Your task to perform on an android device: install app "Google Maps" Image 0: 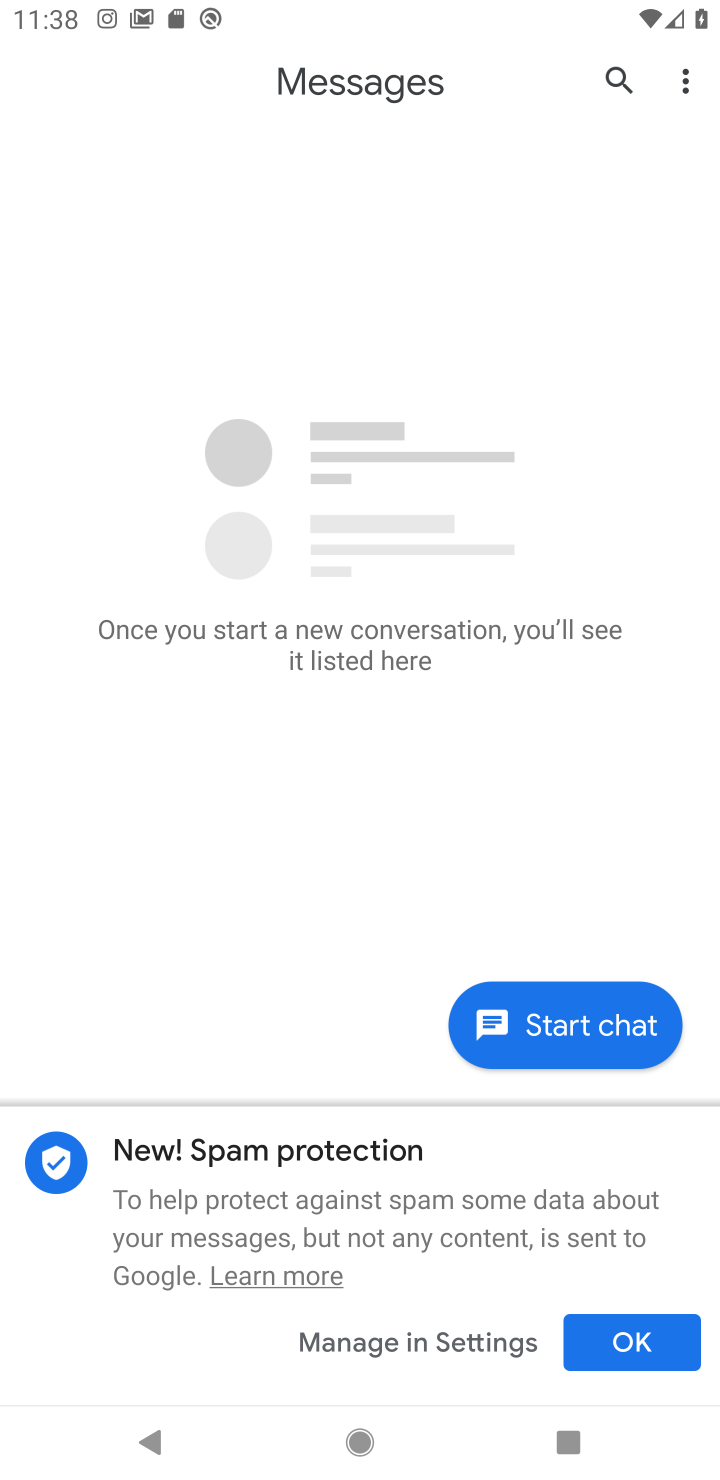
Step 0: press back button
Your task to perform on an android device: install app "Google Maps" Image 1: 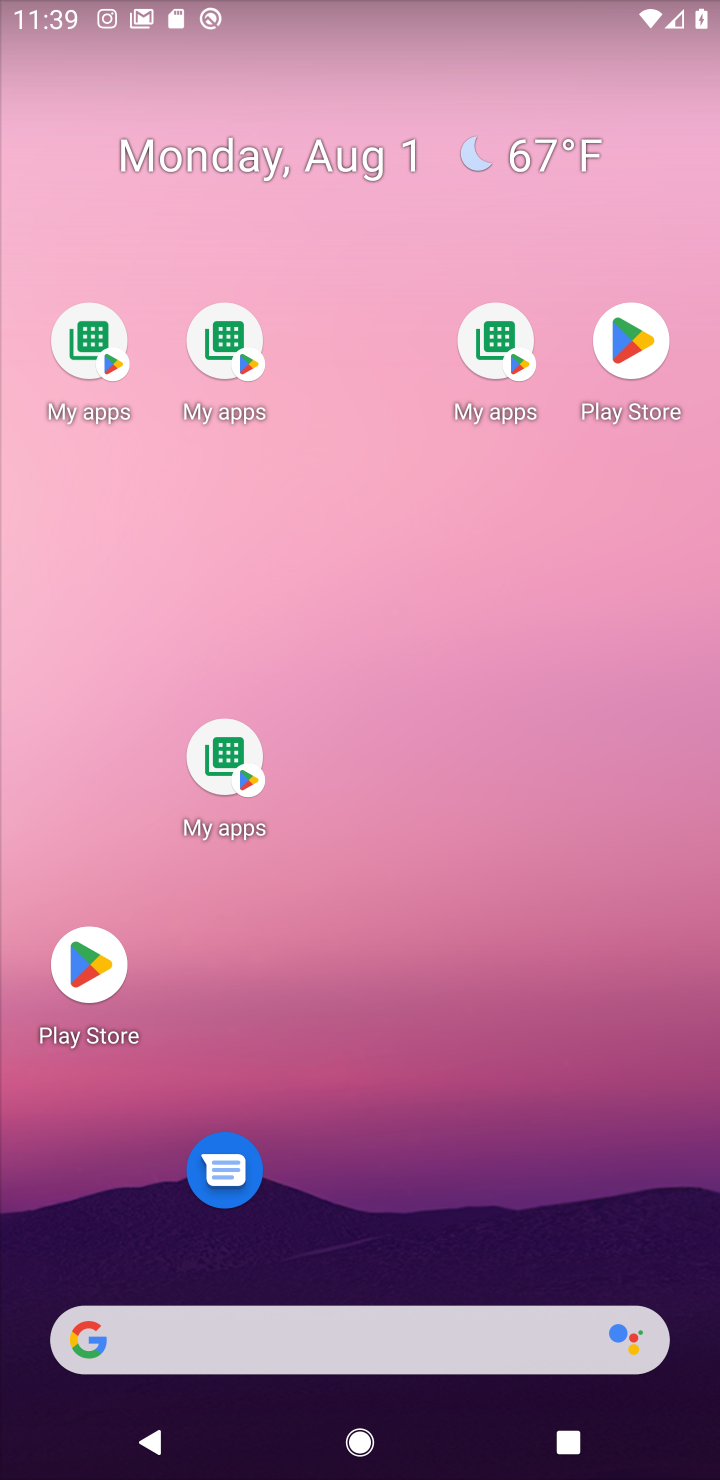
Step 1: drag from (470, 1225) to (406, 0)
Your task to perform on an android device: install app "Google Maps" Image 2: 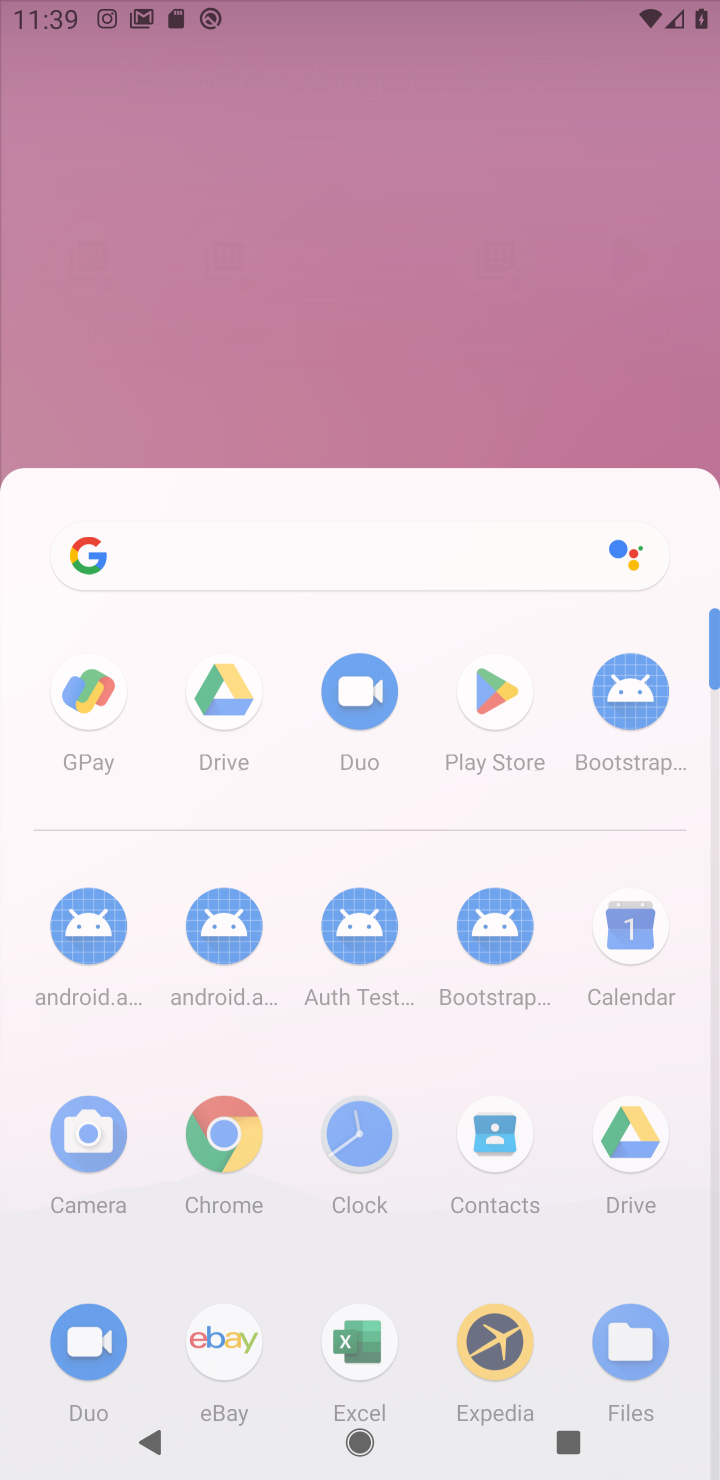
Step 2: drag from (569, 925) to (542, 205)
Your task to perform on an android device: install app "Google Maps" Image 3: 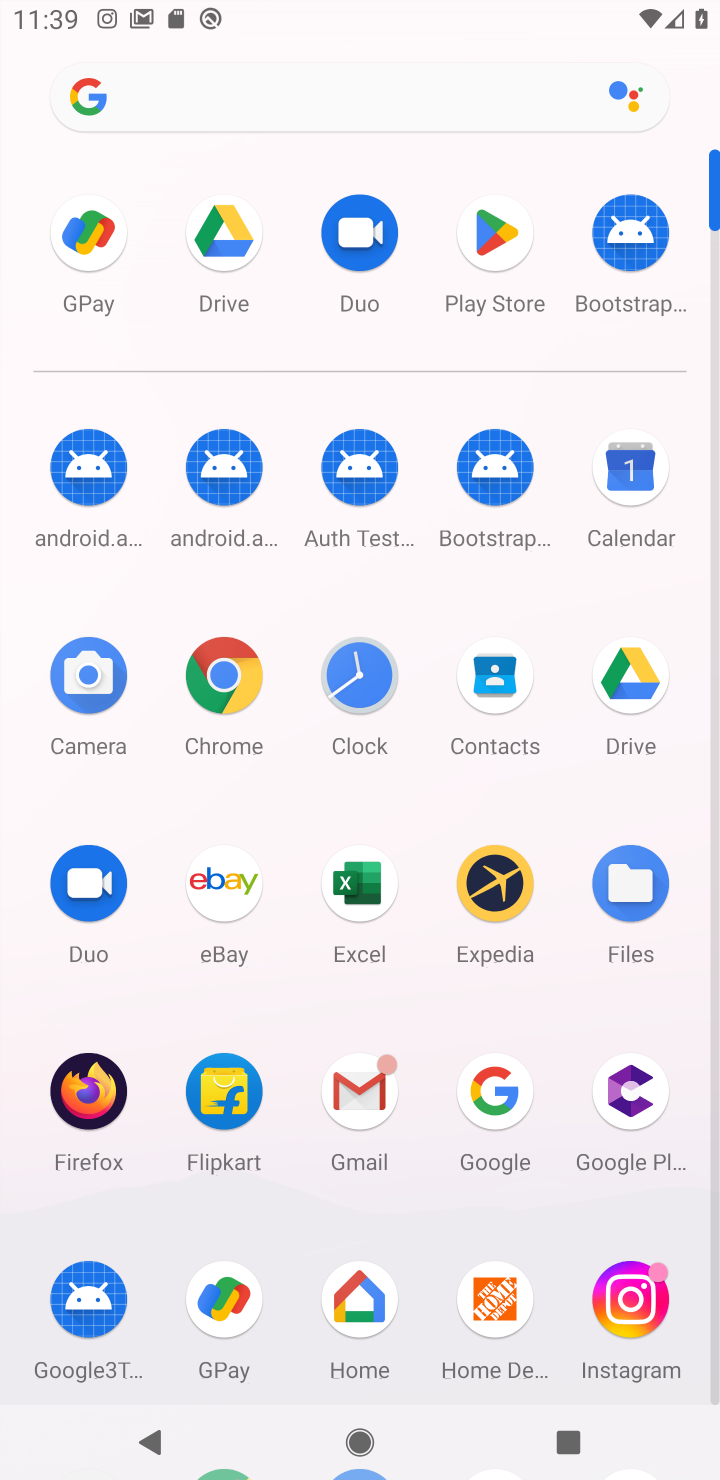
Step 3: drag from (362, 661) to (400, 403)
Your task to perform on an android device: install app "Google Maps" Image 4: 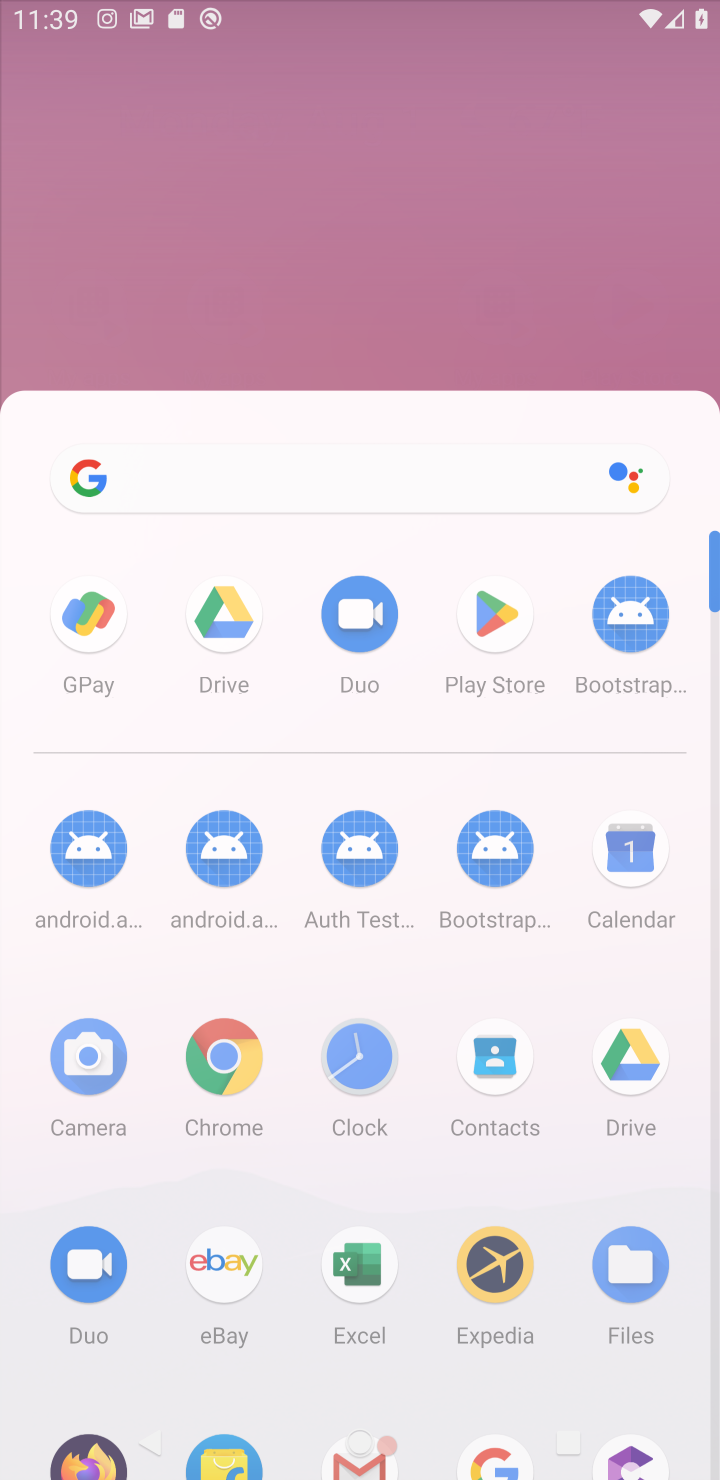
Step 4: drag from (580, 573) to (564, 353)
Your task to perform on an android device: install app "Google Maps" Image 5: 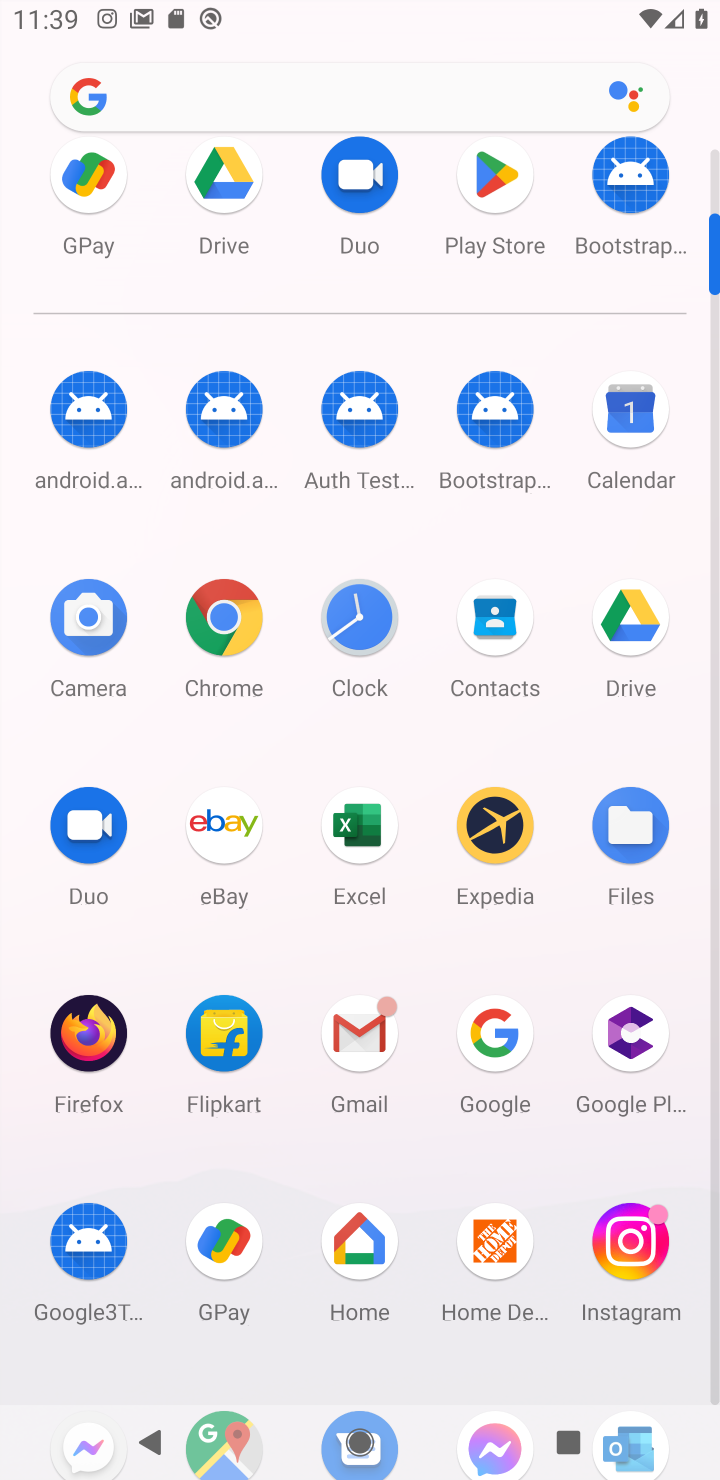
Step 5: click (256, 410)
Your task to perform on an android device: install app "Google Maps" Image 6: 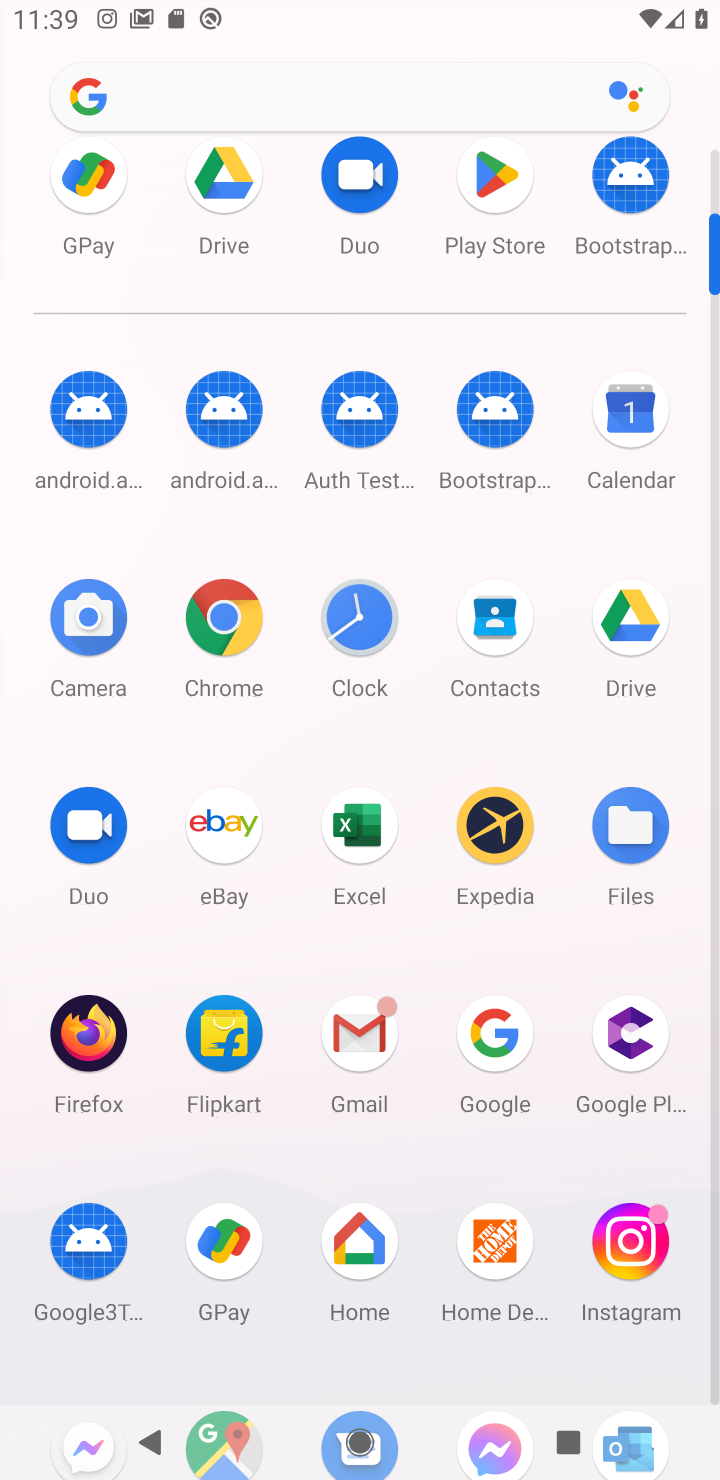
Step 6: drag from (449, 606) to (408, 358)
Your task to perform on an android device: install app "Google Maps" Image 7: 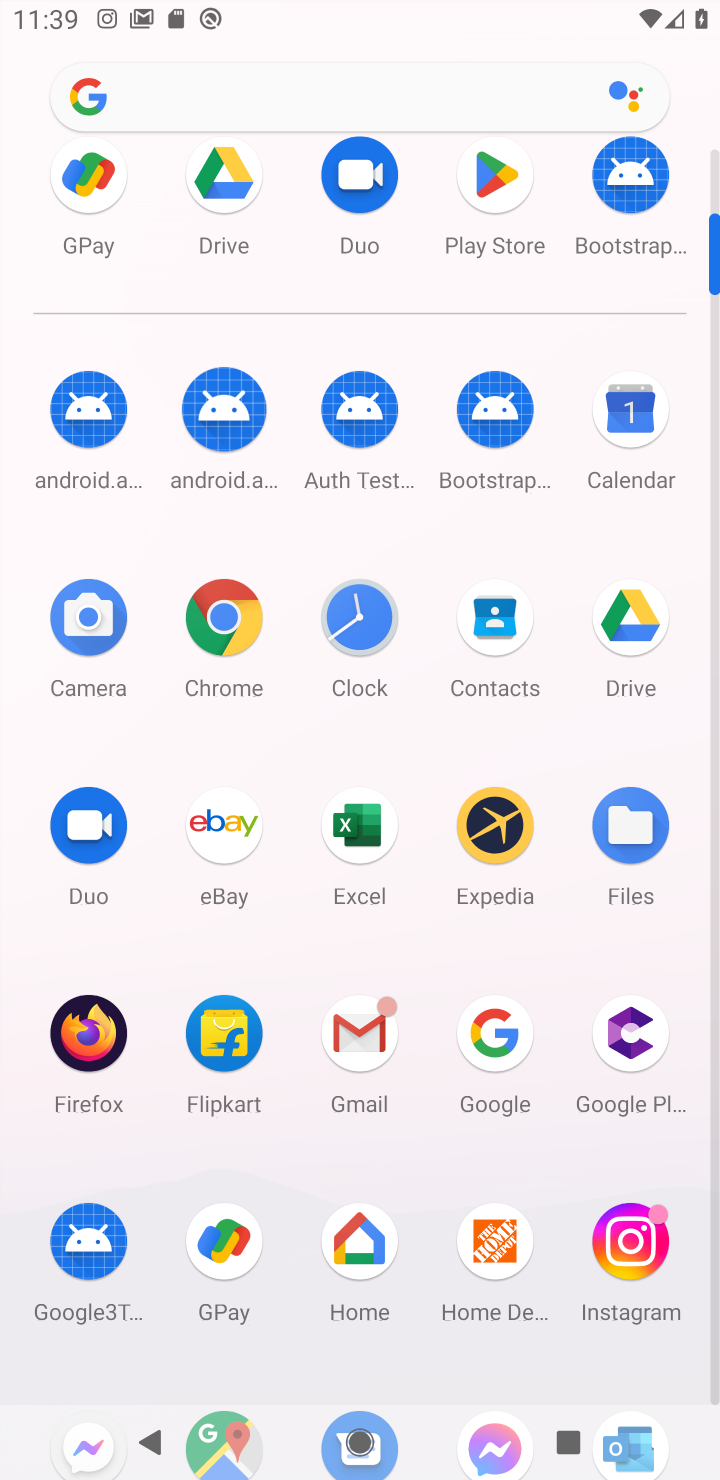
Step 7: drag from (356, 505) to (265, 107)
Your task to perform on an android device: install app "Google Maps" Image 8: 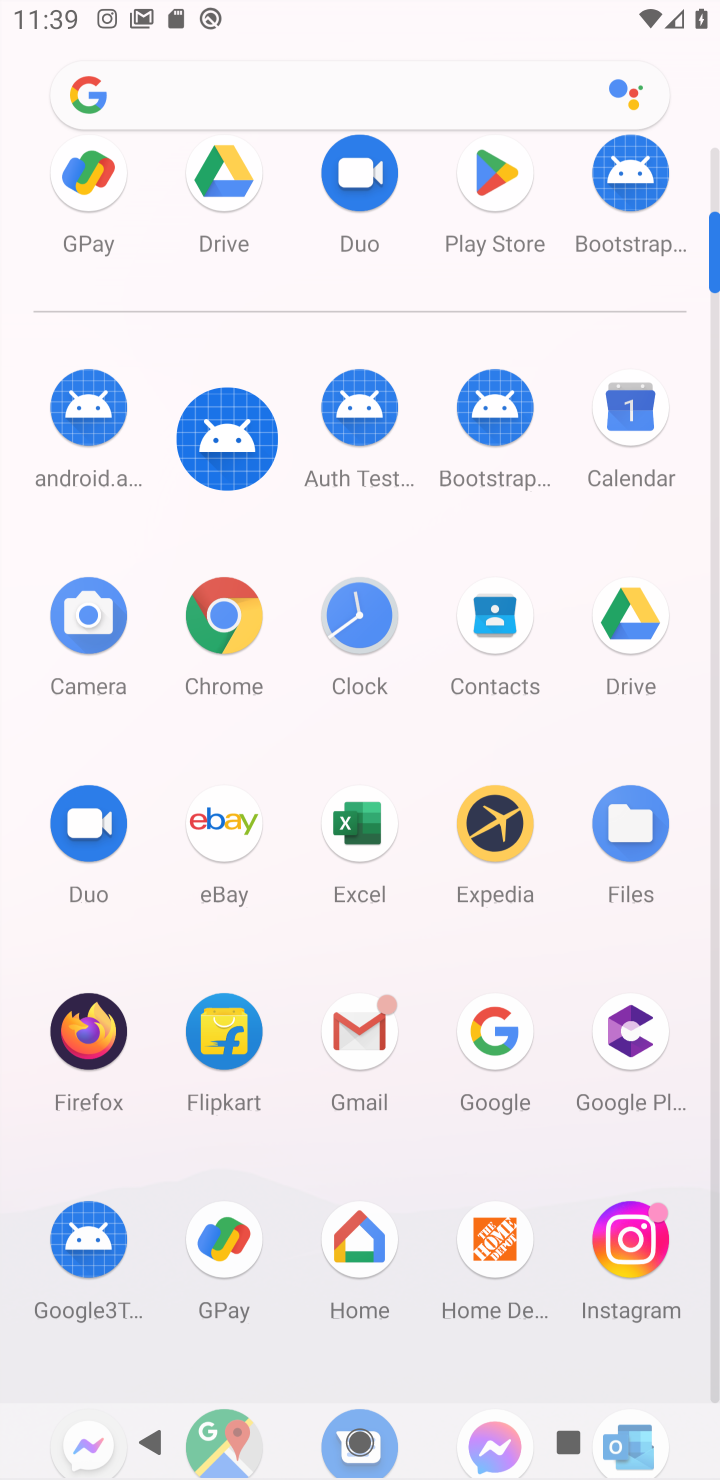
Step 8: drag from (387, 1122) to (520, 224)
Your task to perform on an android device: install app "Google Maps" Image 9: 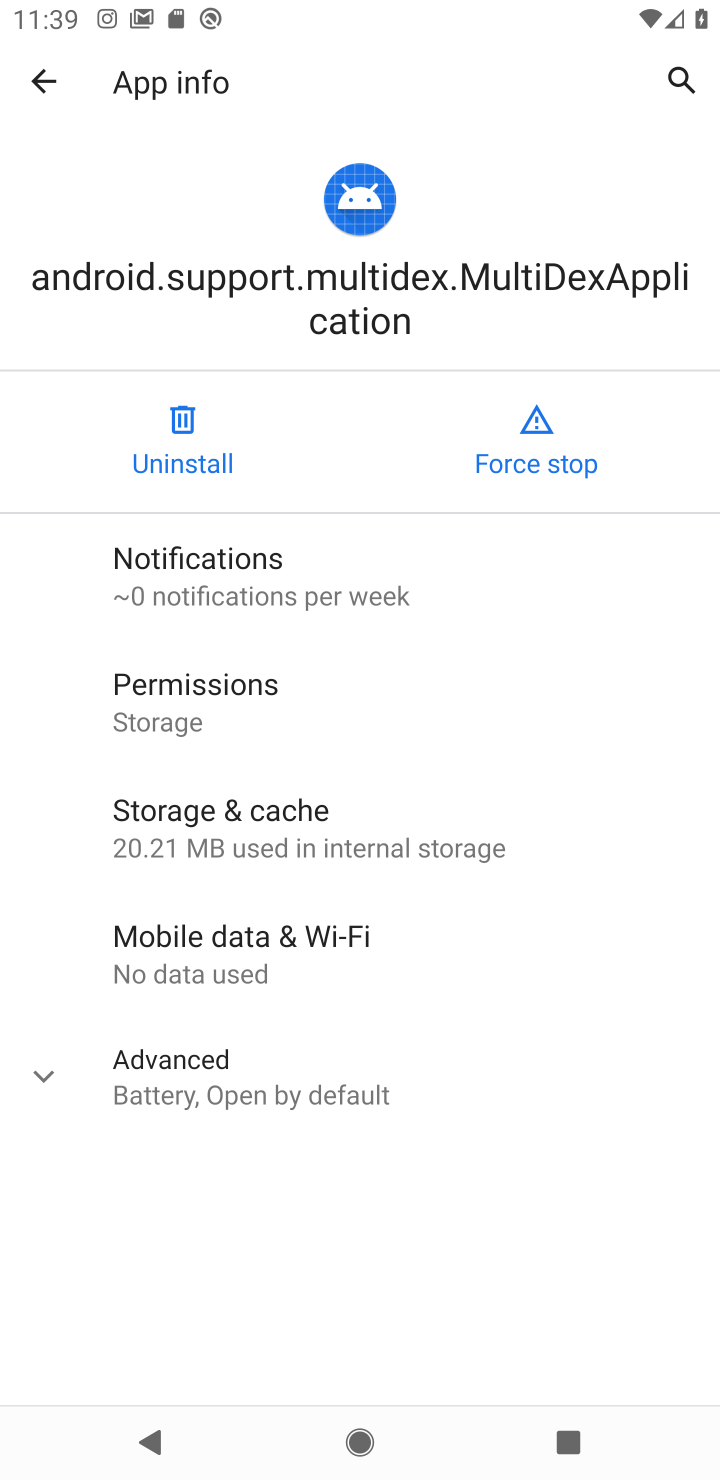
Step 9: drag from (521, 1156) to (398, 230)
Your task to perform on an android device: install app "Google Maps" Image 10: 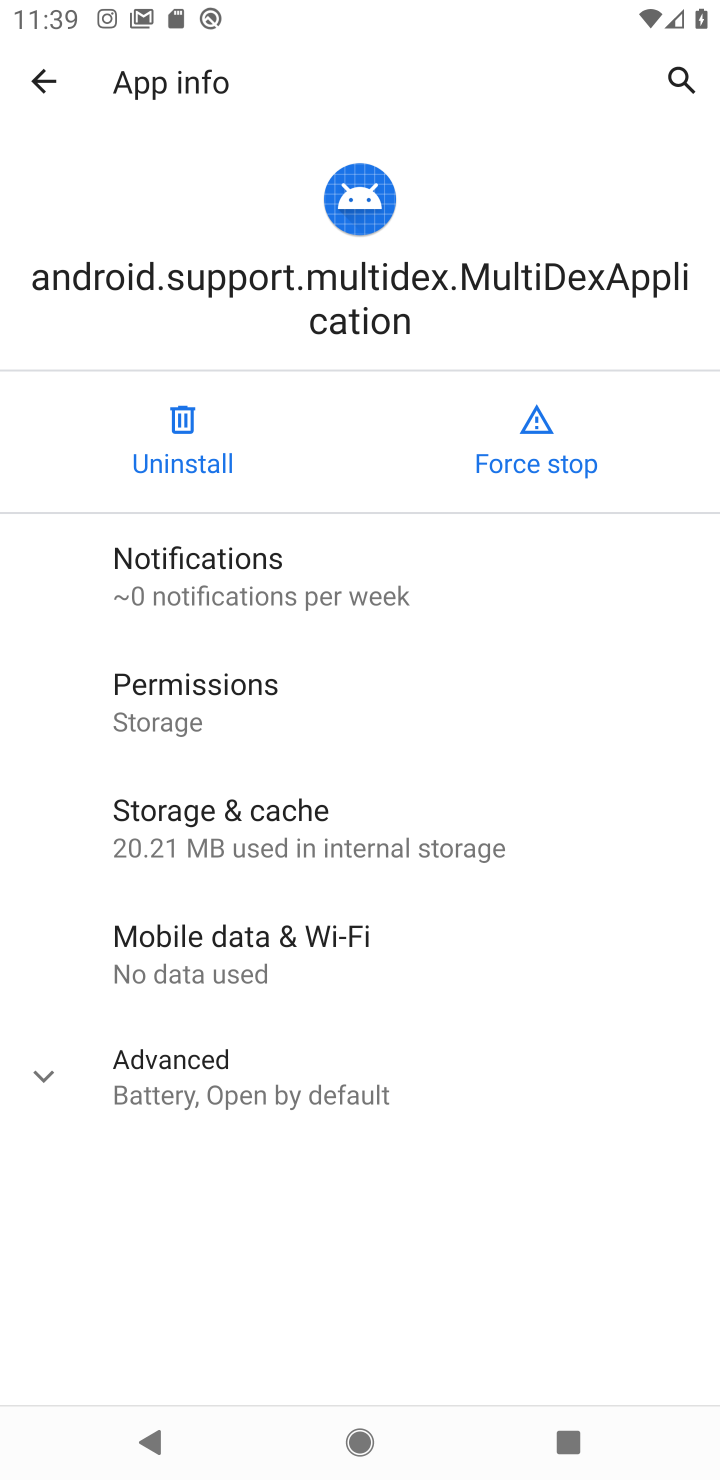
Step 10: click (273, 457)
Your task to perform on an android device: install app "Google Maps" Image 11: 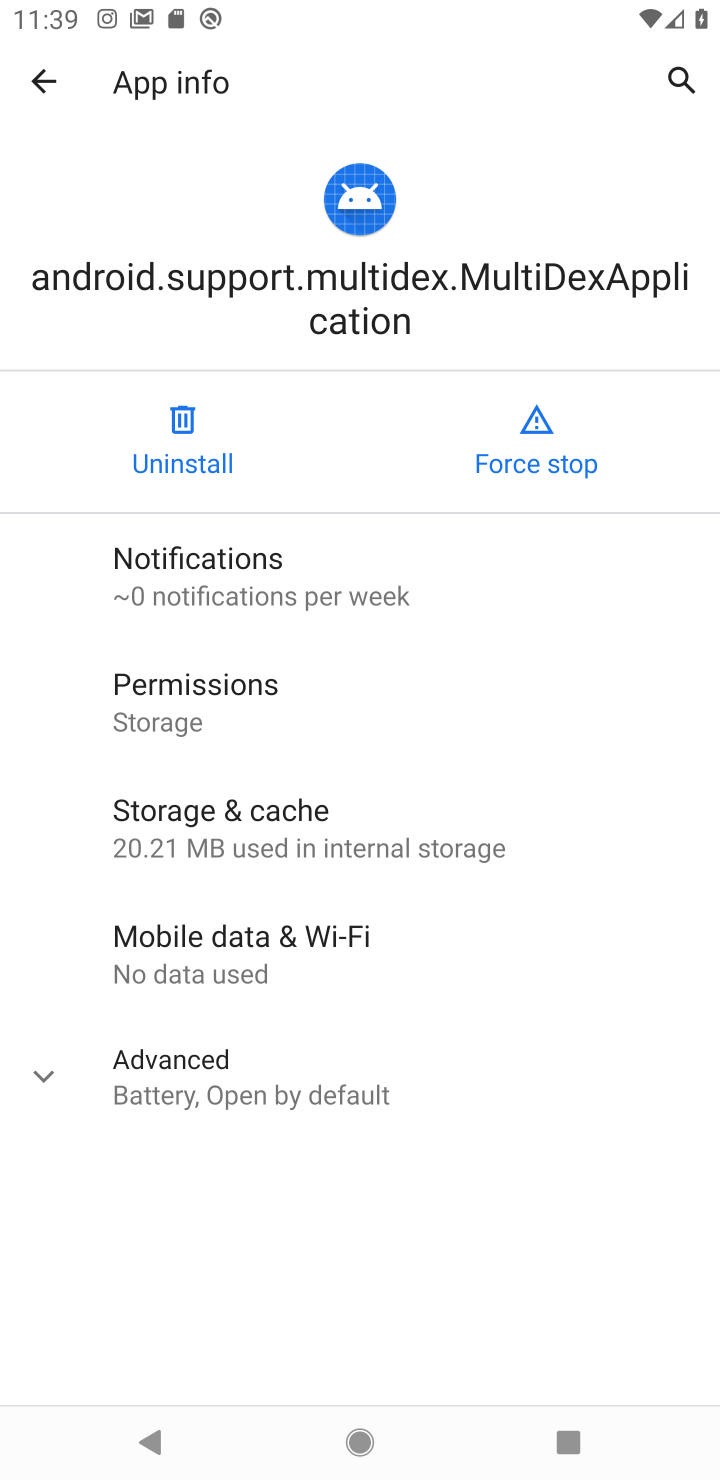
Step 11: click (44, 69)
Your task to perform on an android device: install app "Google Maps" Image 12: 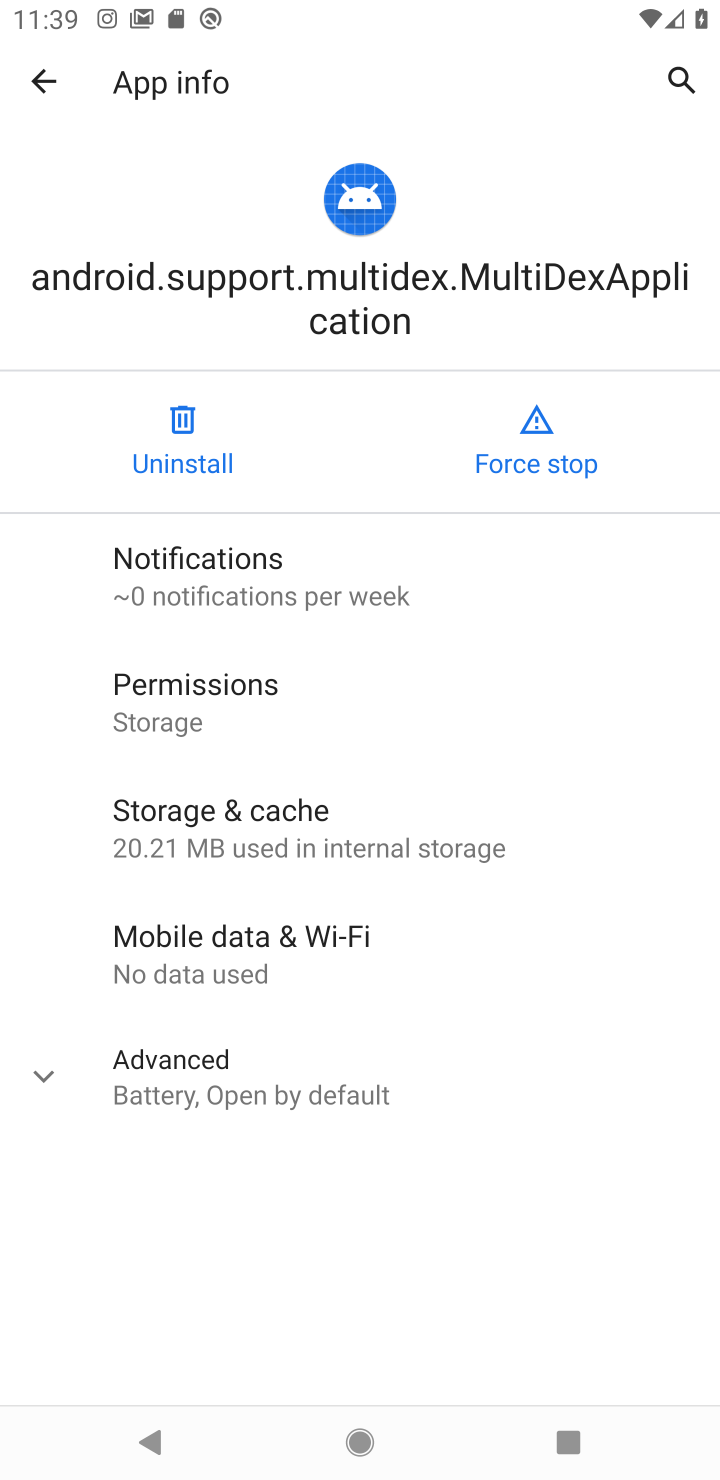
Step 12: click (42, 68)
Your task to perform on an android device: install app "Google Maps" Image 13: 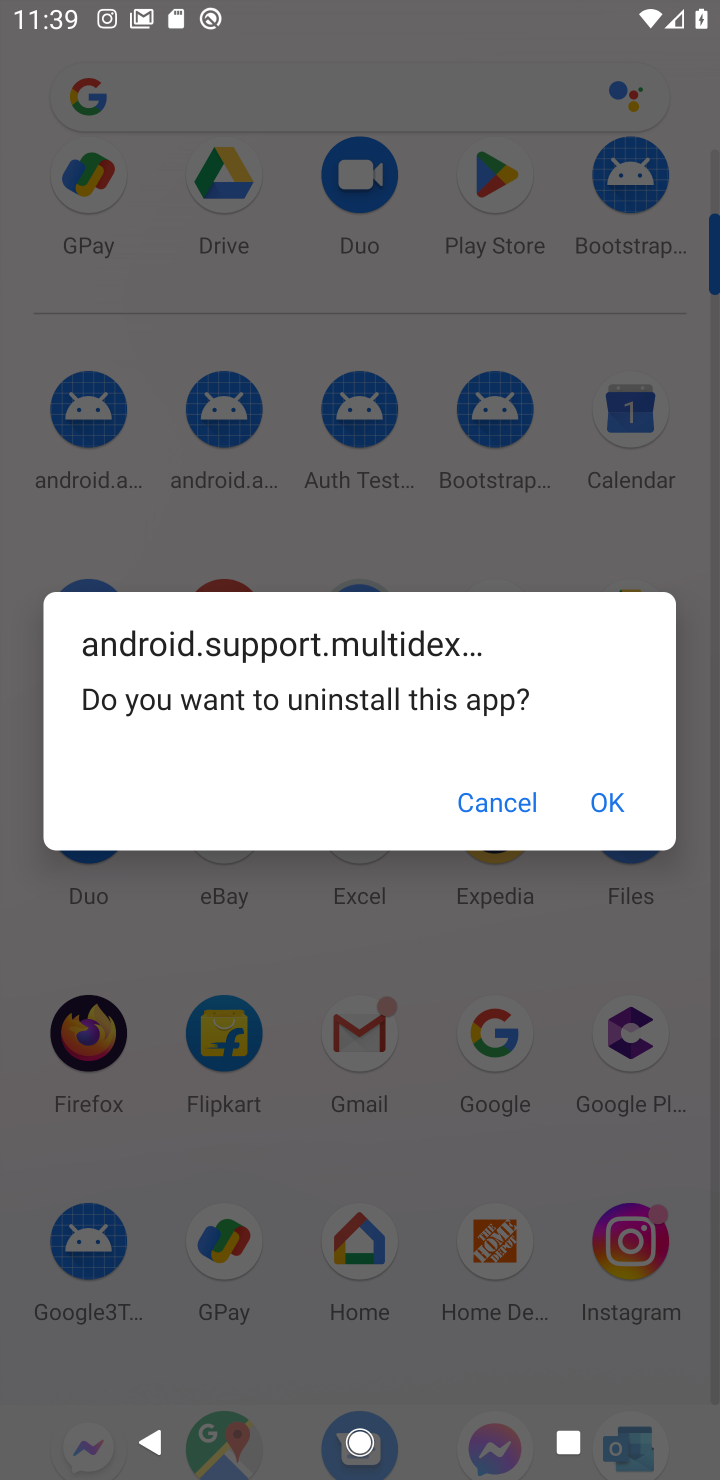
Step 13: click (498, 819)
Your task to perform on an android device: install app "Google Maps" Image 14: 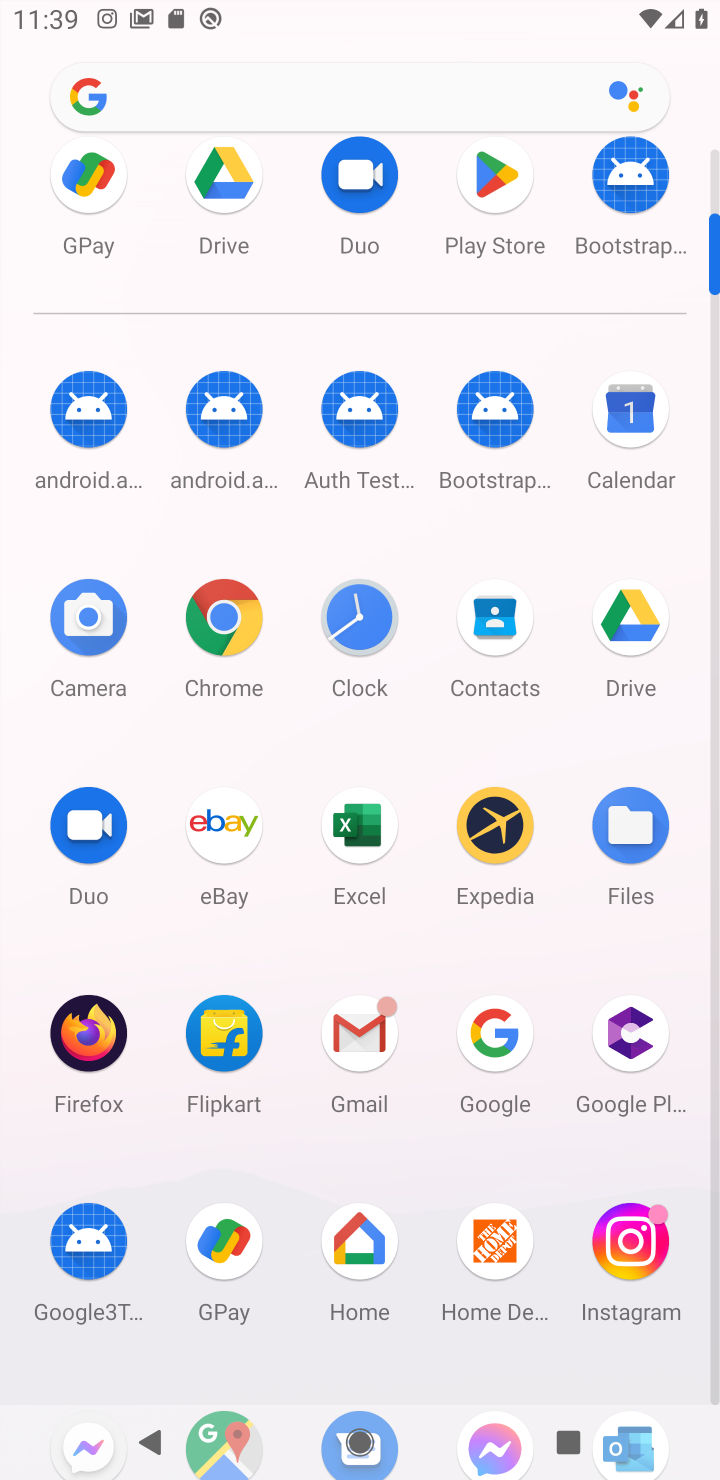
Step 14: drag from (285, 199) to (500, 671)
Your task to perform on an android device: install app "Google Maps" Image 15: 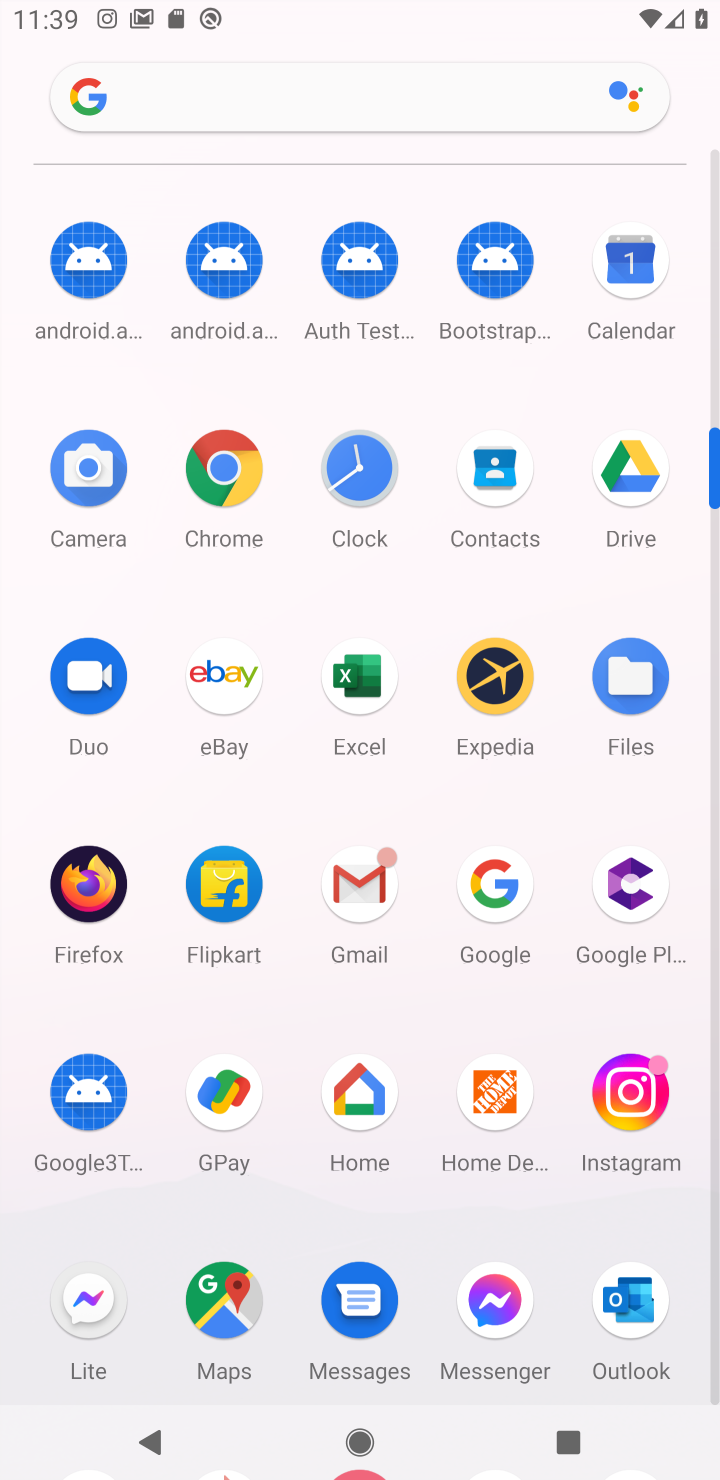
Step 15: drag from (364, 480) to (274, 142)
Your task to perform on an android device: install app "Google Maps" Image 16: 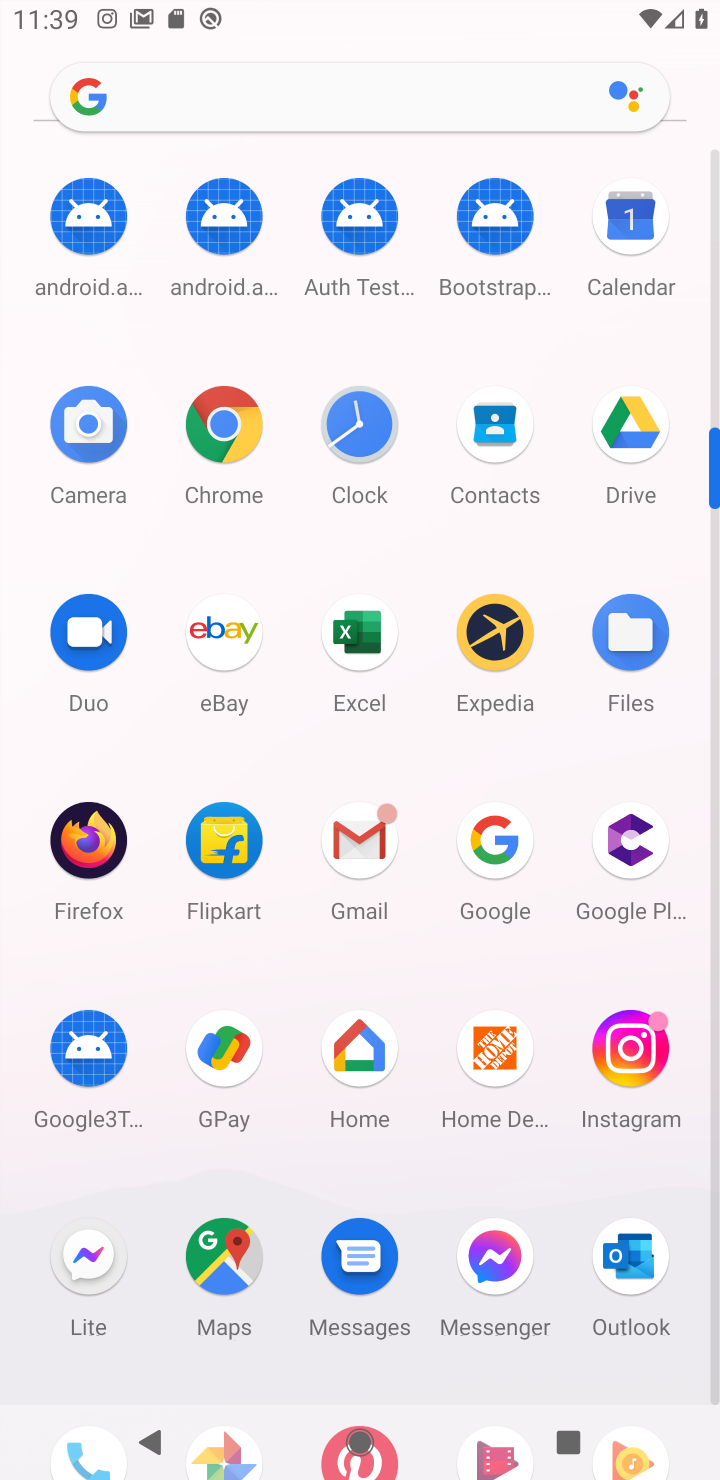
Step 16: drag from (360, 924) to (269, 391)
Your task to perform on an android device: install app "Google Maps" Image 17: 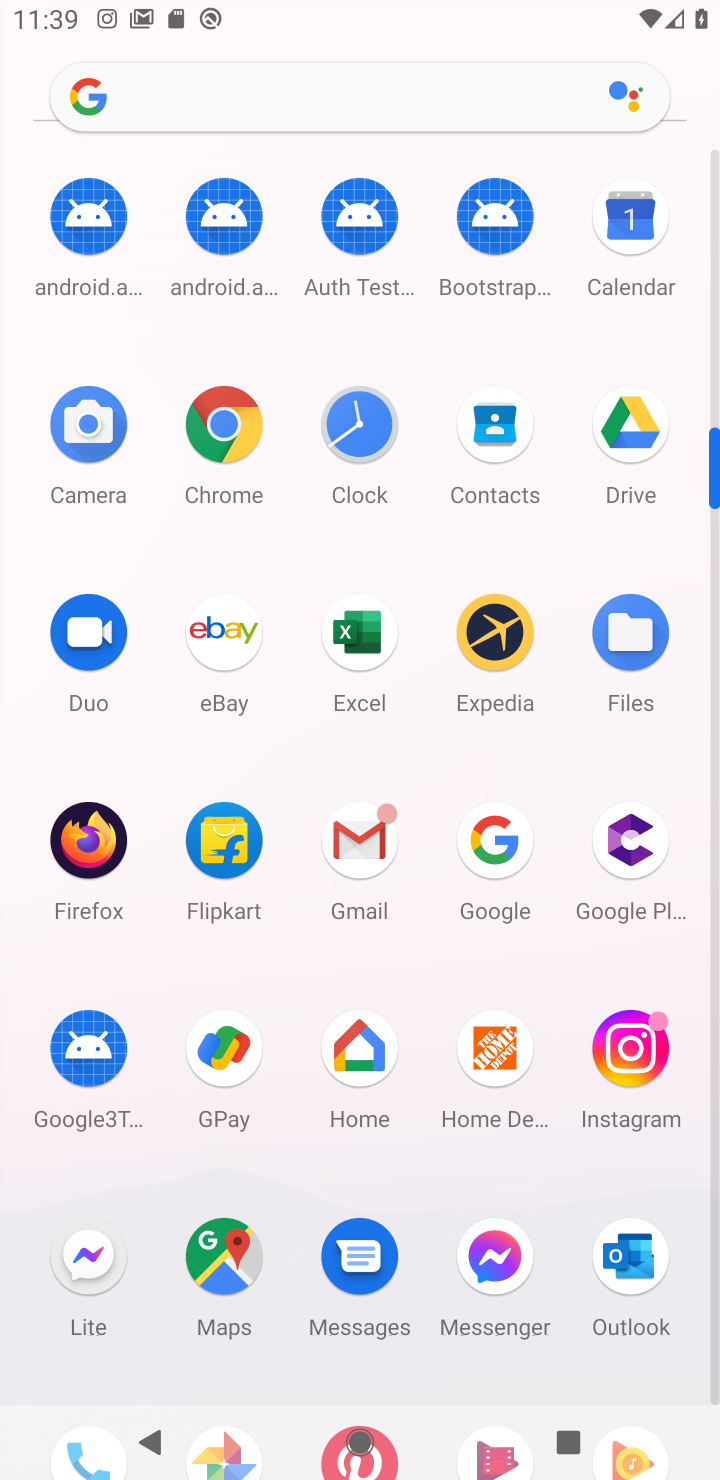
Step 17: drag from (374, 1151) to (435, 203)
Your task to perform on an android device: install app "Google Maps" Image 18: 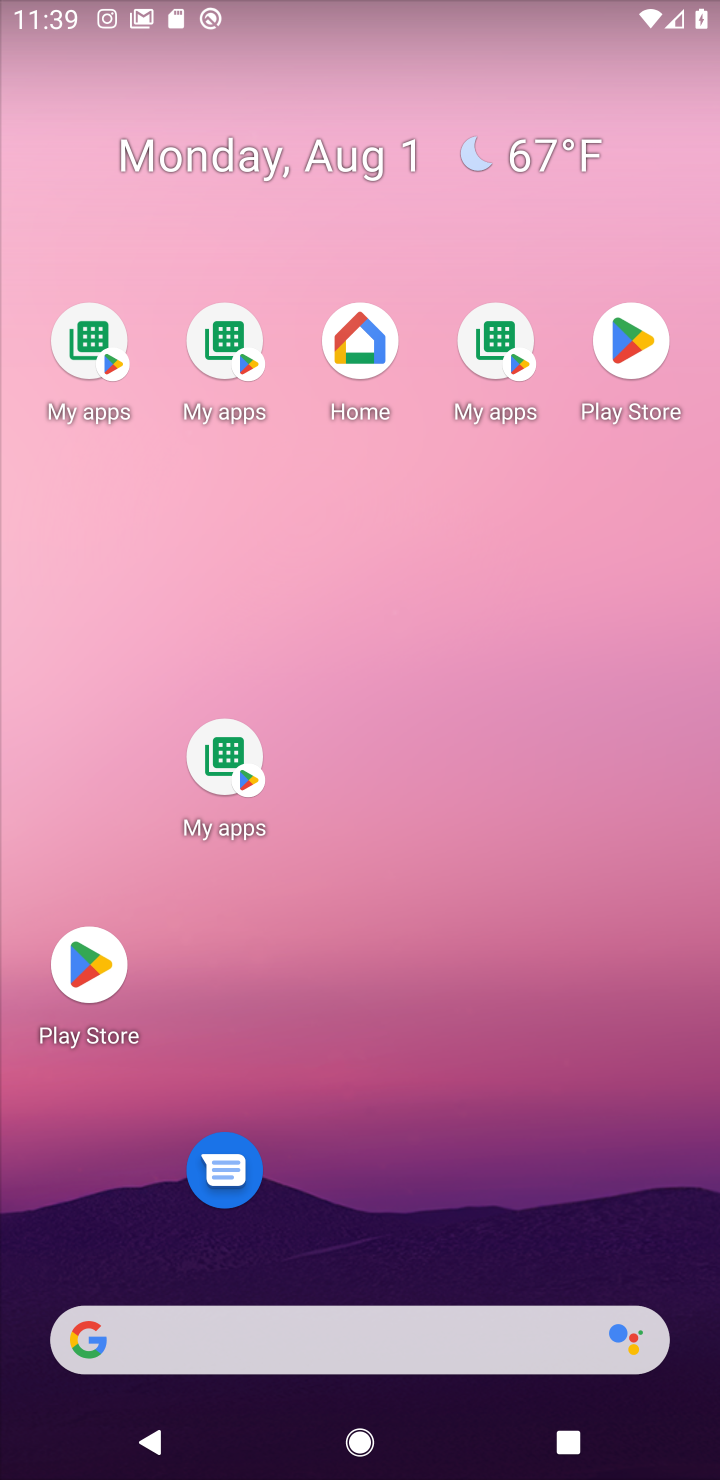
Step 18: click (648, 367)
Your task to perform on an android device: install app "Google Maps" Image 19: 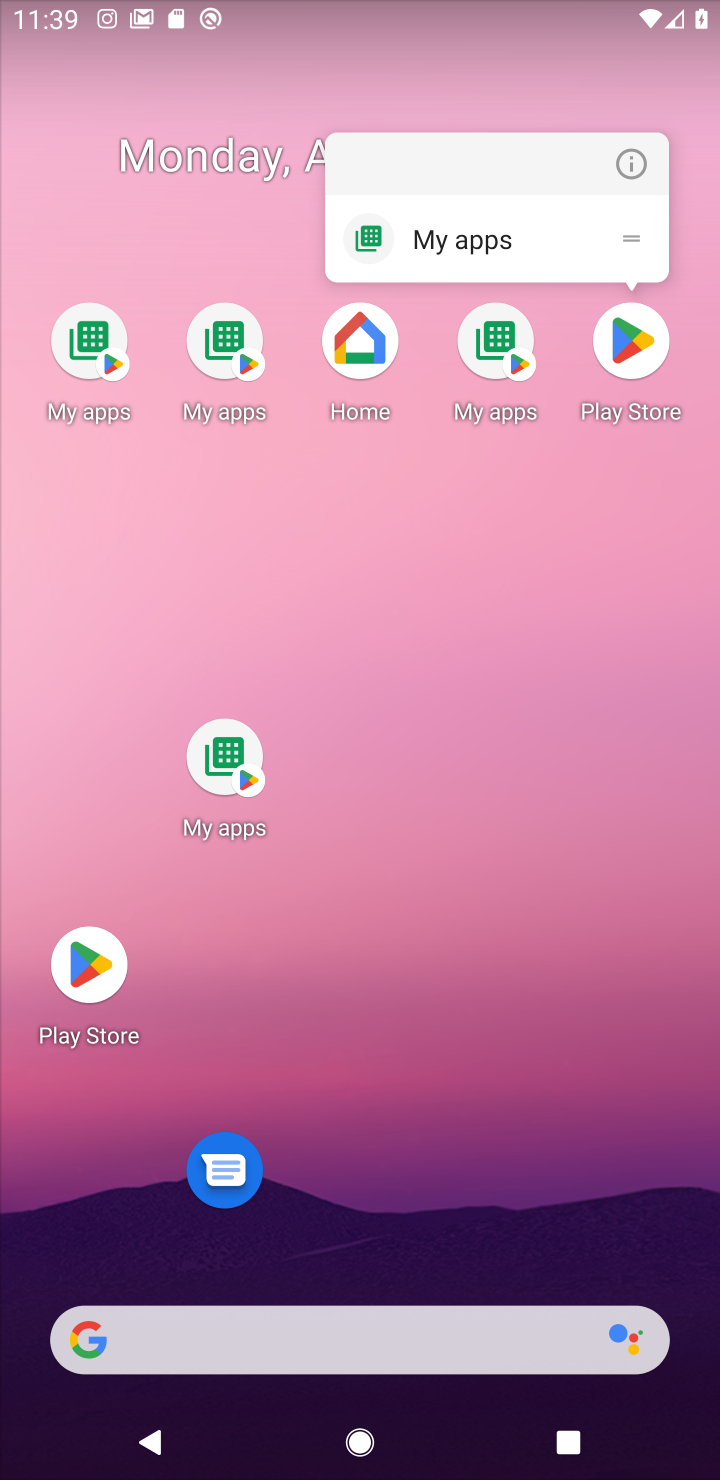
Step 19: click (491, 244)
Your task to perform on an android device: install app "Google Maps" Image 20: 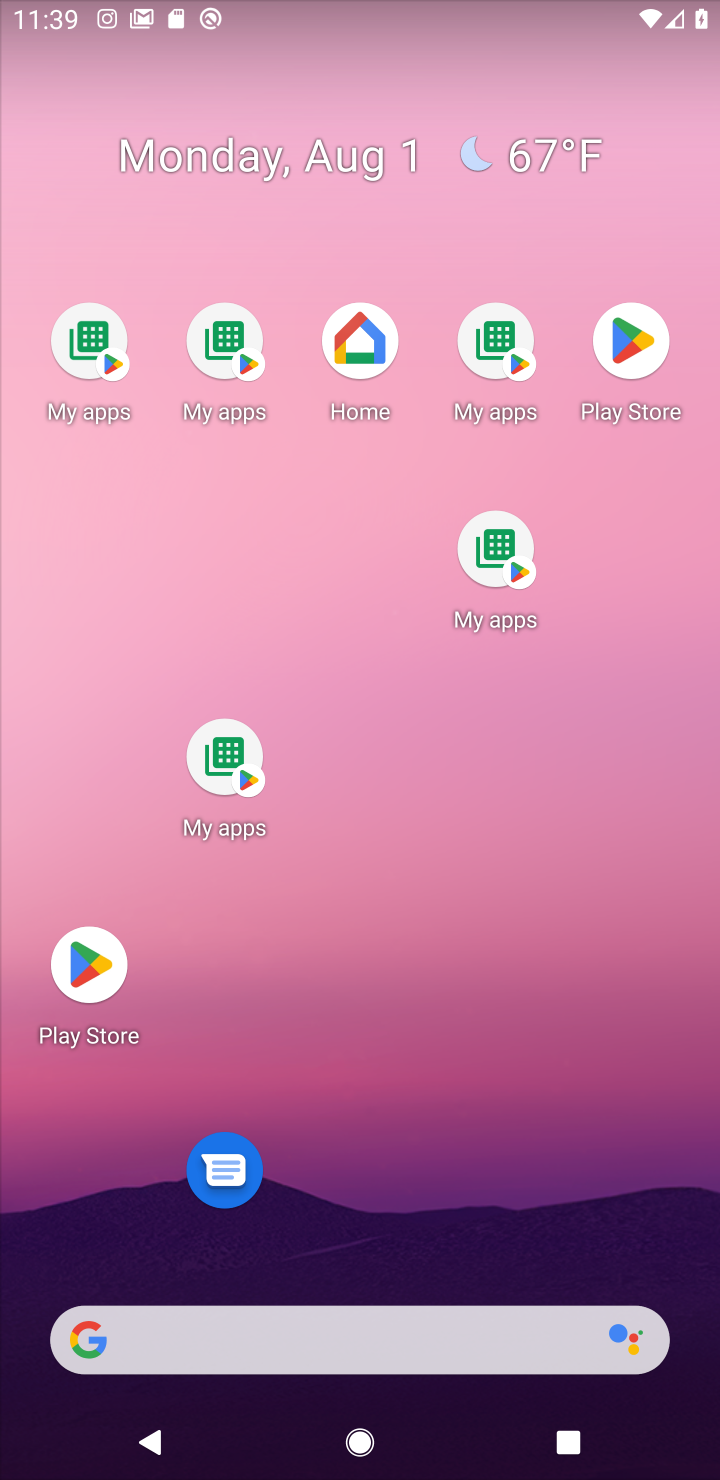
Step 20: click (629, 339)
Your task to perform on an android device: install app "Google Maps" Image 21: 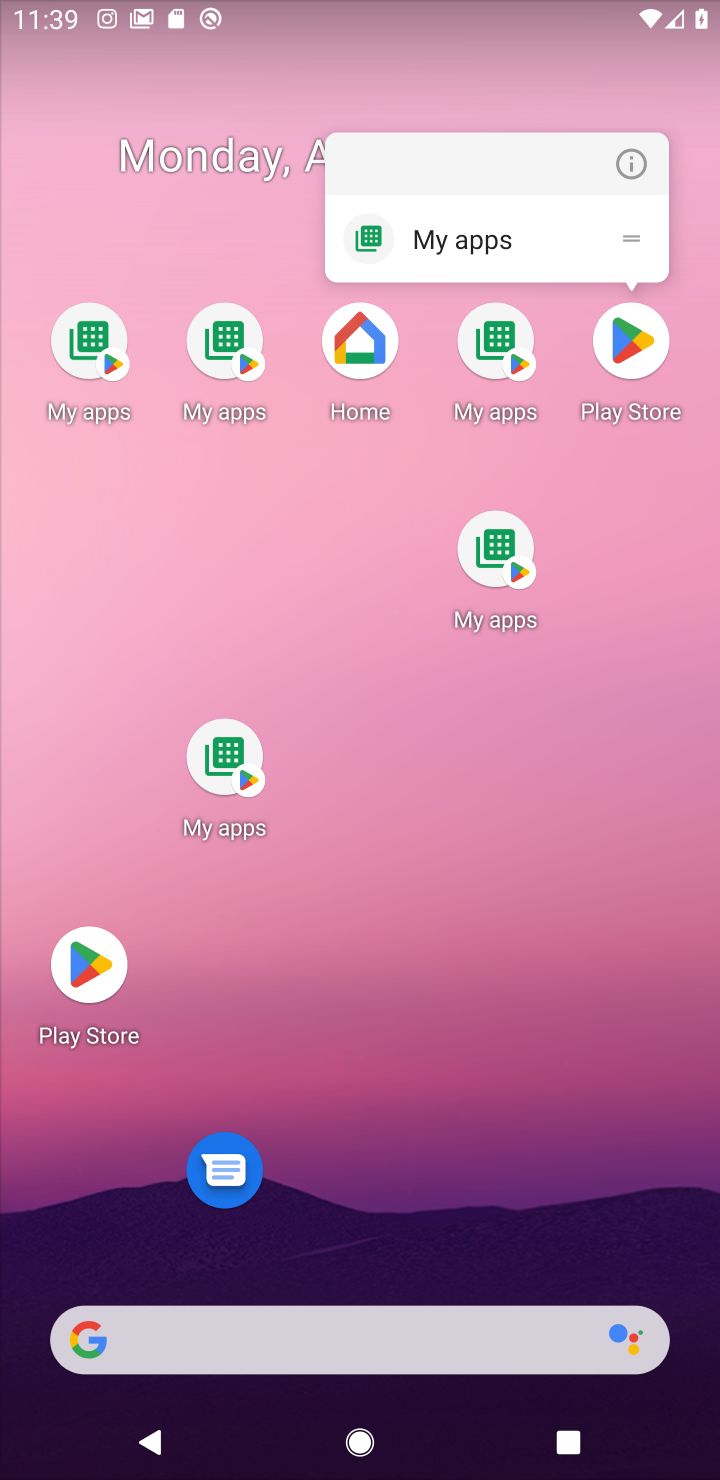
Step 21: click (509, 251)
Your task to perform on an android device: install app "Google Maps" Image 22: 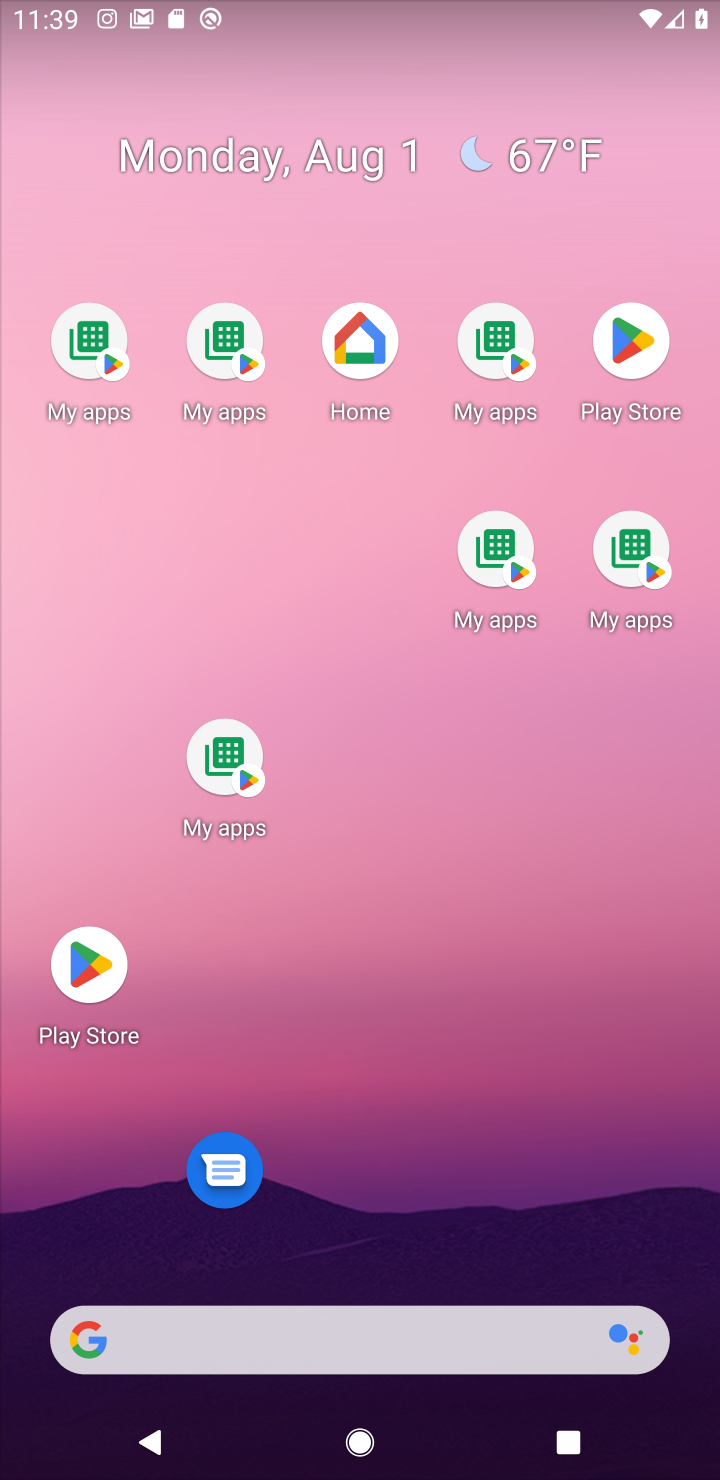
Step 22: click (619, 335)
Your task to perform on an android device: install app "Google Maps" Image 23: 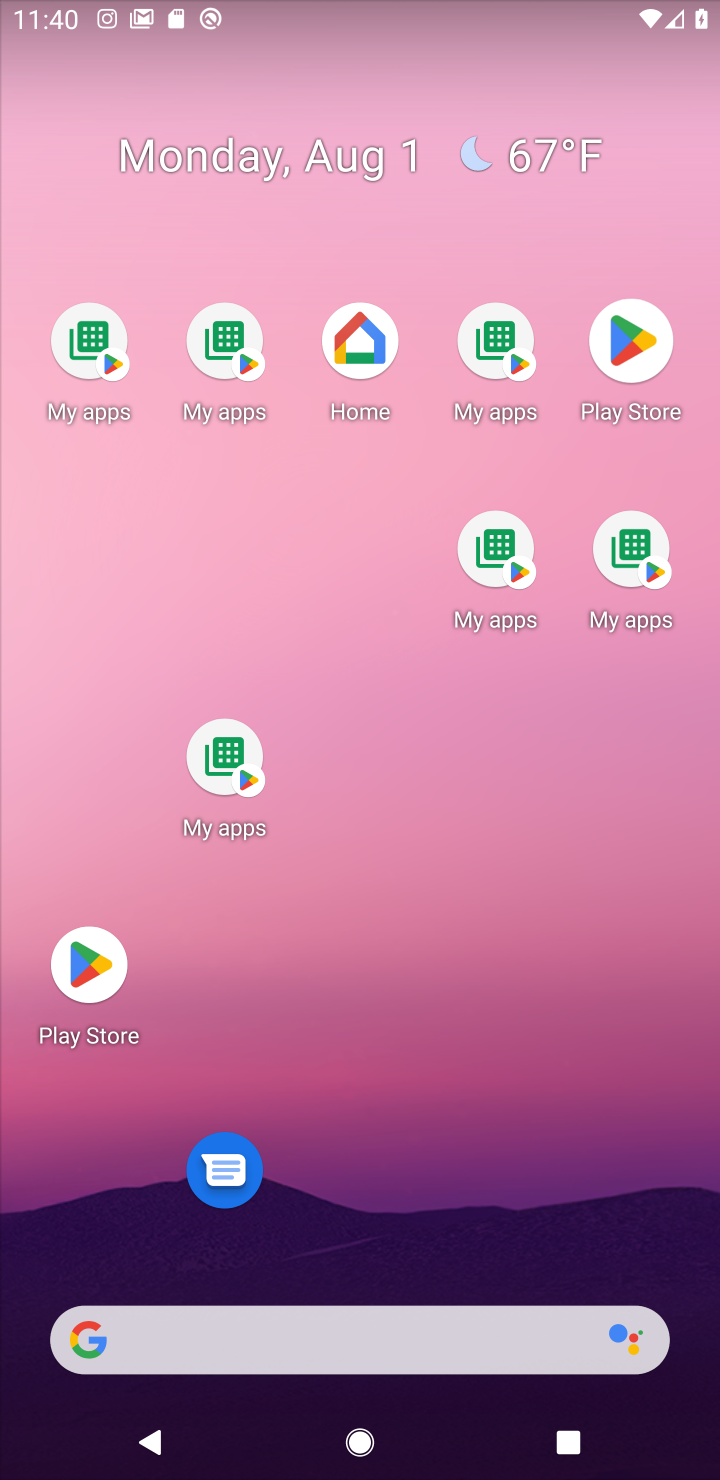
Step 23: click (626, 331)
Your task to perform on an android device: install app "Google Maps" Image 24: 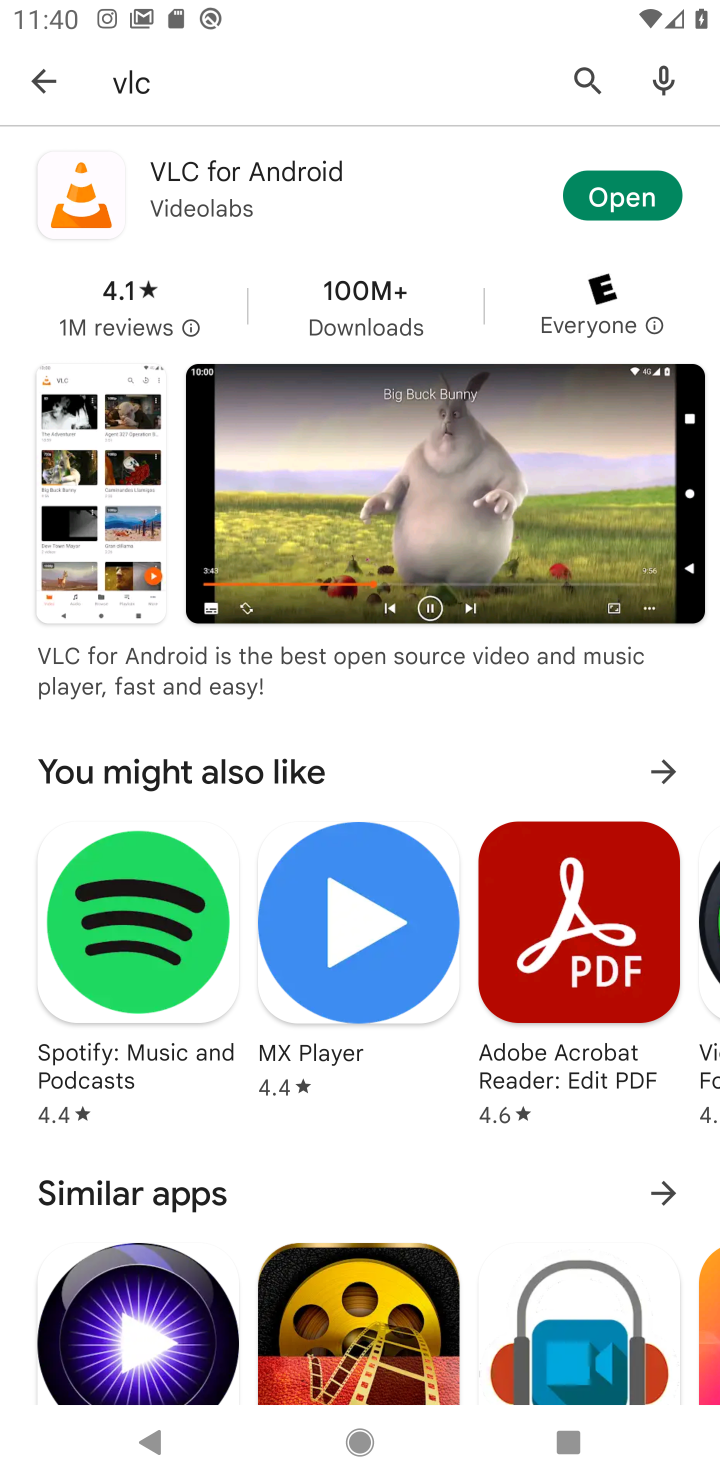
Step 24: click (599, 329)
Your task to perform on an android device: install app "Google Maps" Image 25: 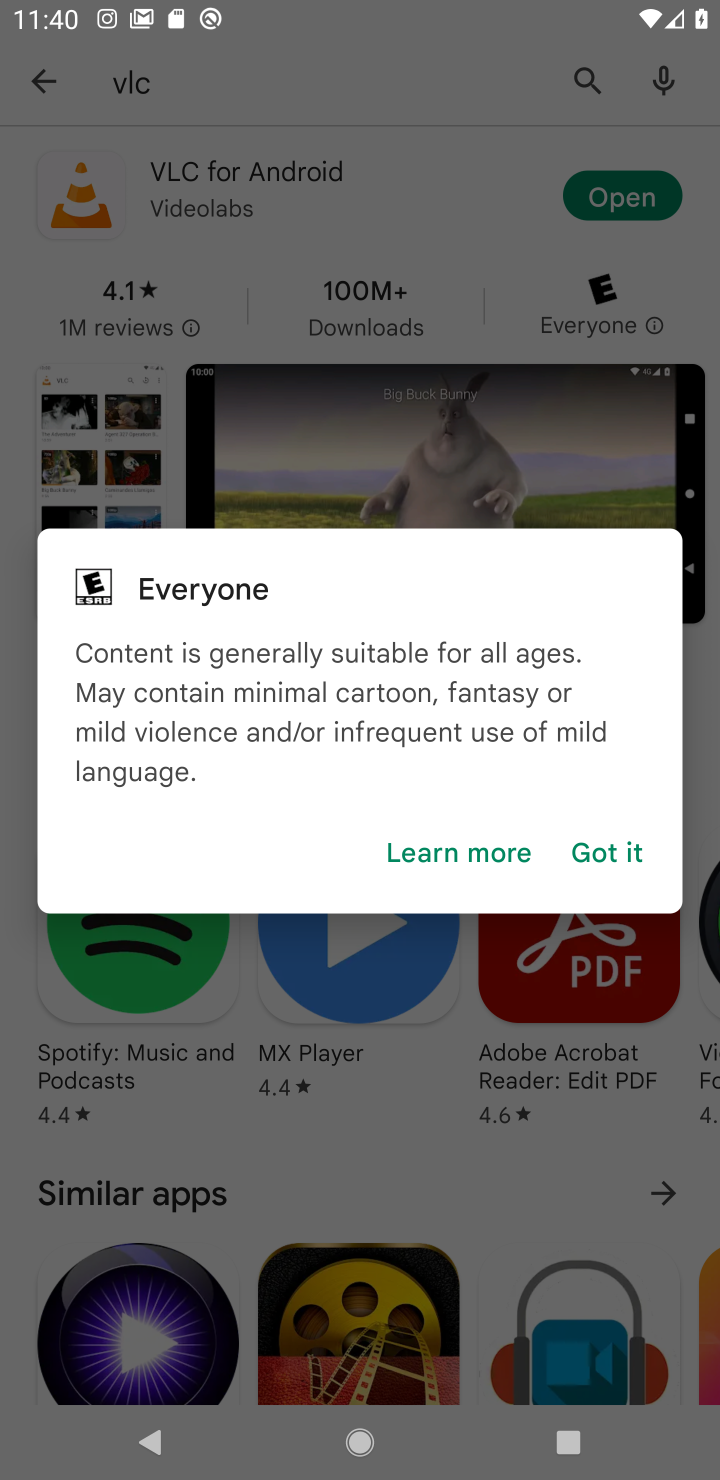
Step 25: click (599, 73)
Your task to perform on an android device: install app "Google Maps" Image 26: 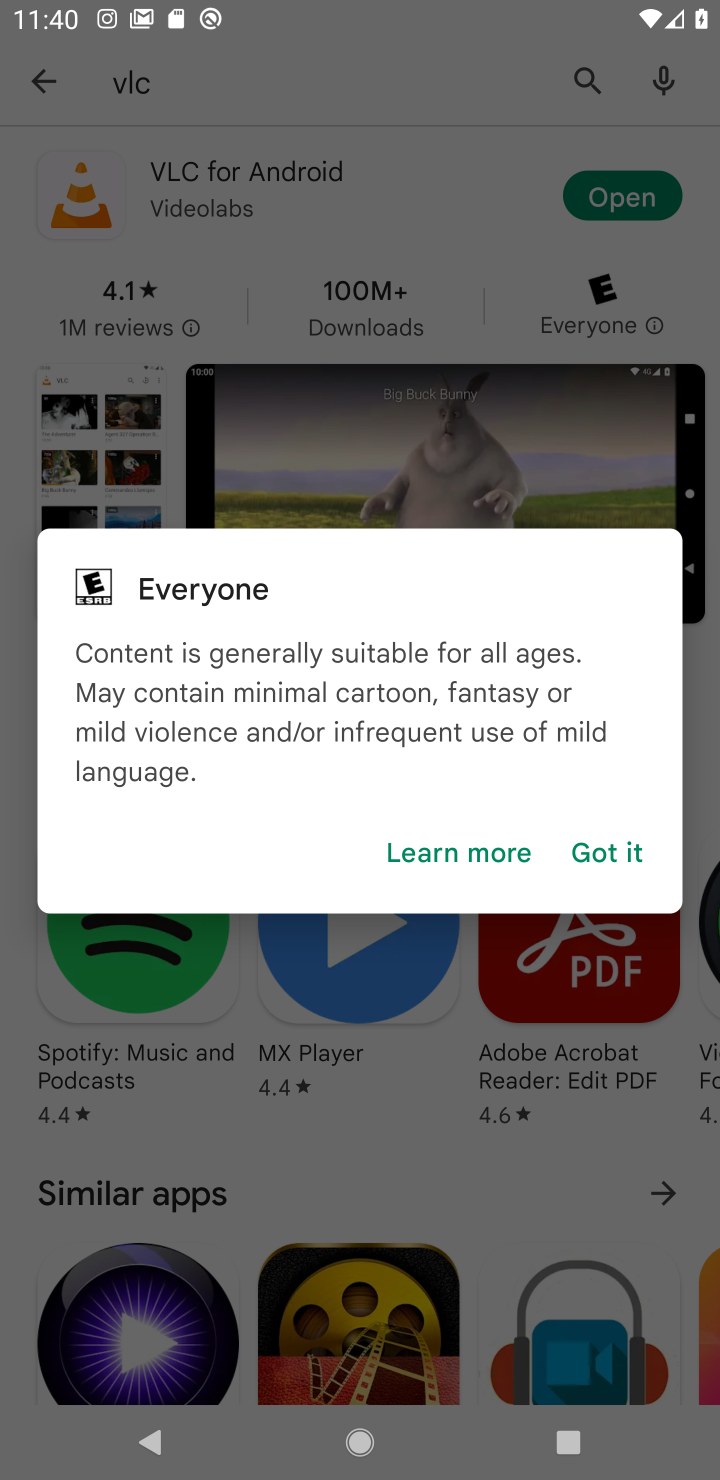
Step 26: click (599, 73)
Your task to perform on an android device: install app "Google Maps" Image 27: 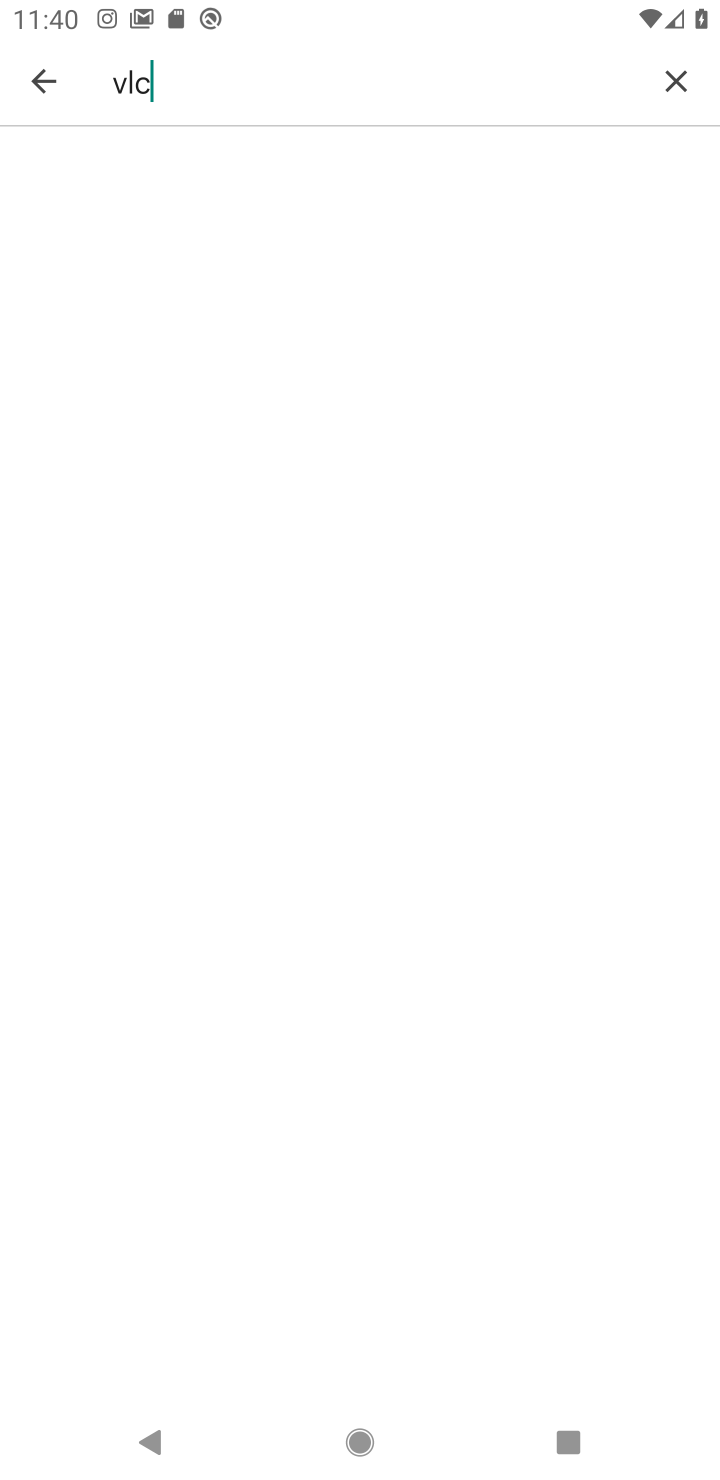
Step 27: click (593, 66)
Your task to perform on an android device: install app "Google Maps" Image 28: 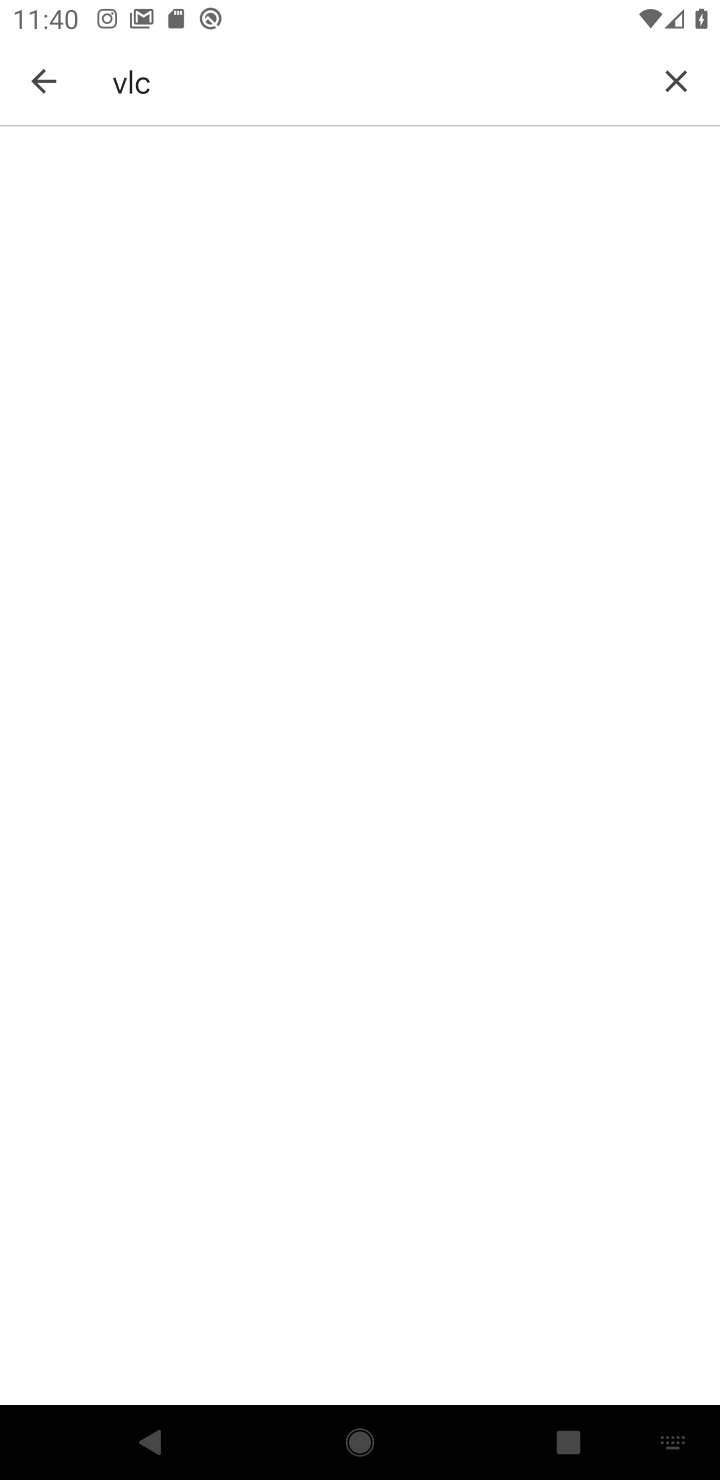
Step 28: click (591, 64)
Your task to perform on an android device: install app "Google Maps" Image 29: 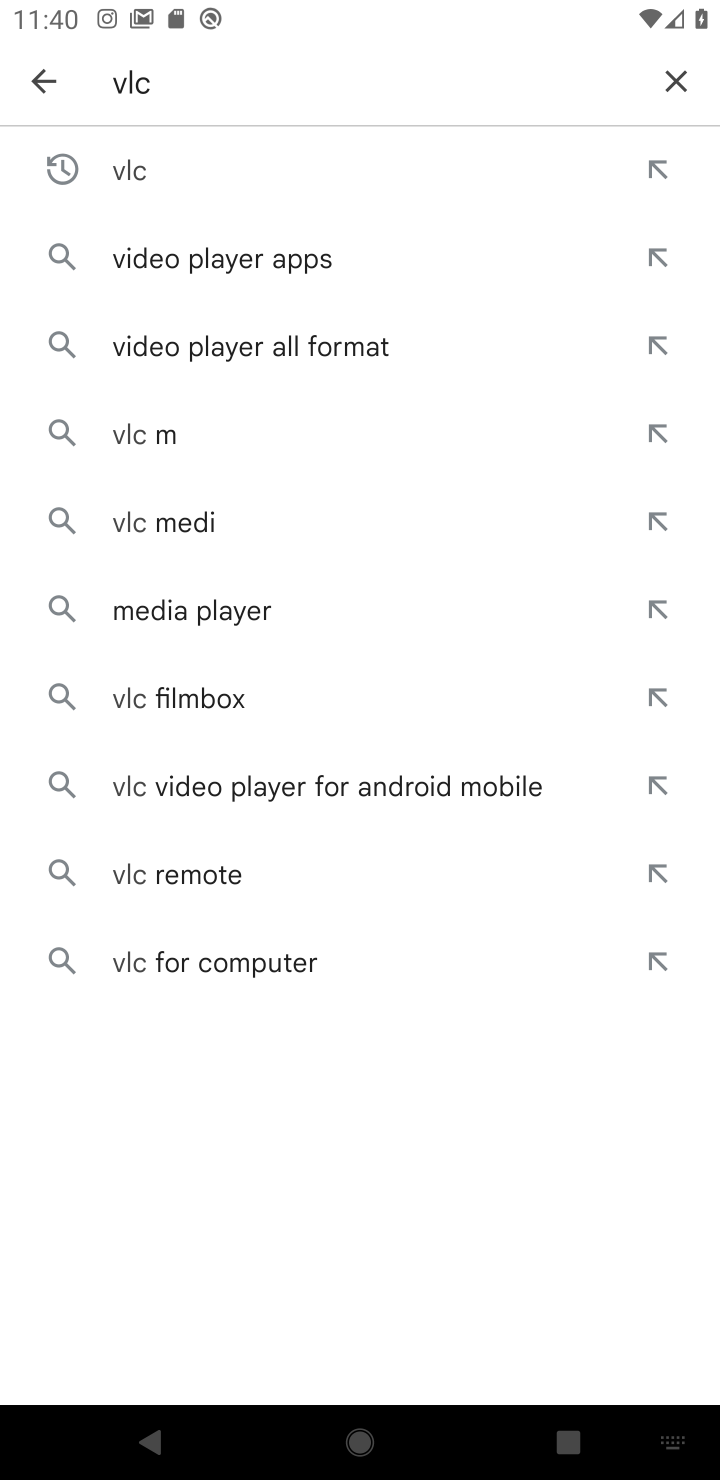
Step 29: click (683, 106)
Your task to perform on an android device: install app "Google Maps" Image 30: 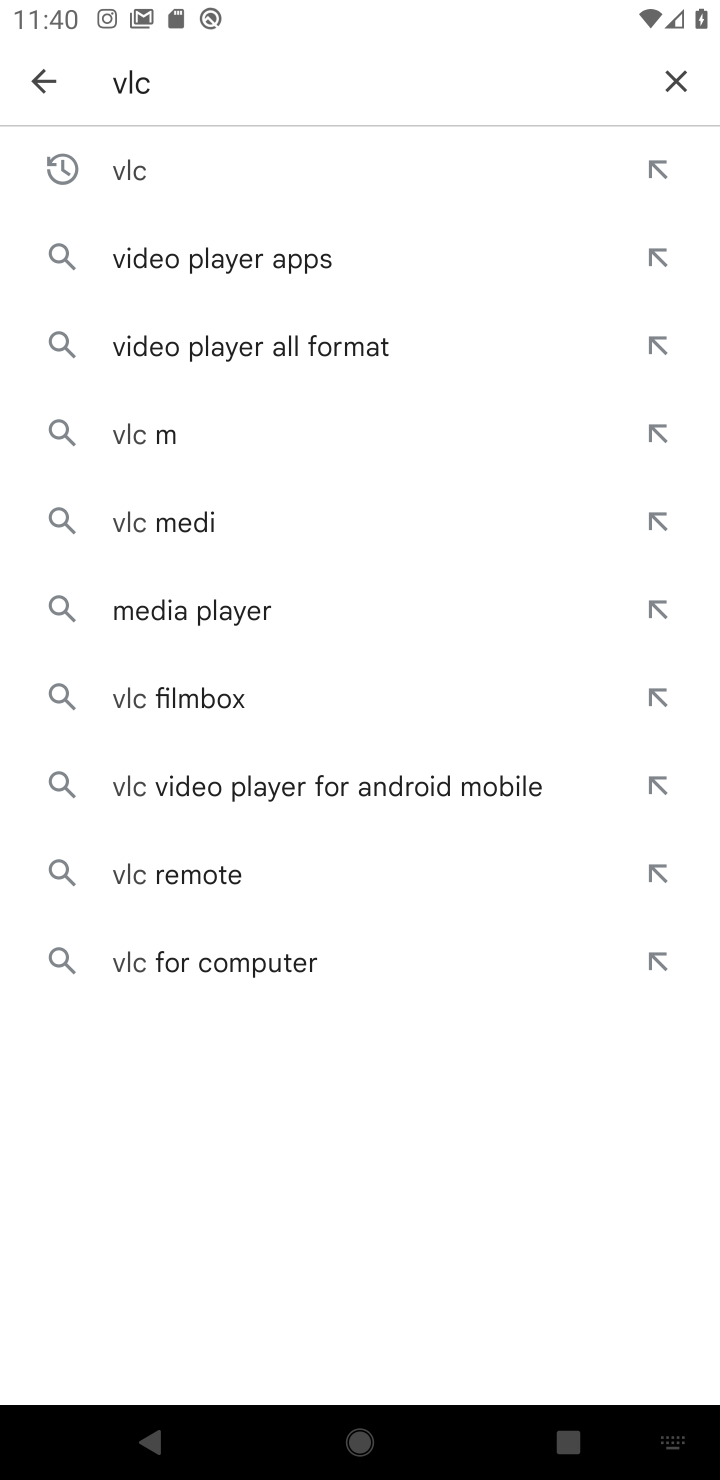
Step 30: click (688, 113)
Your task to perform on an android device: install app "Google Maps" Image 31: 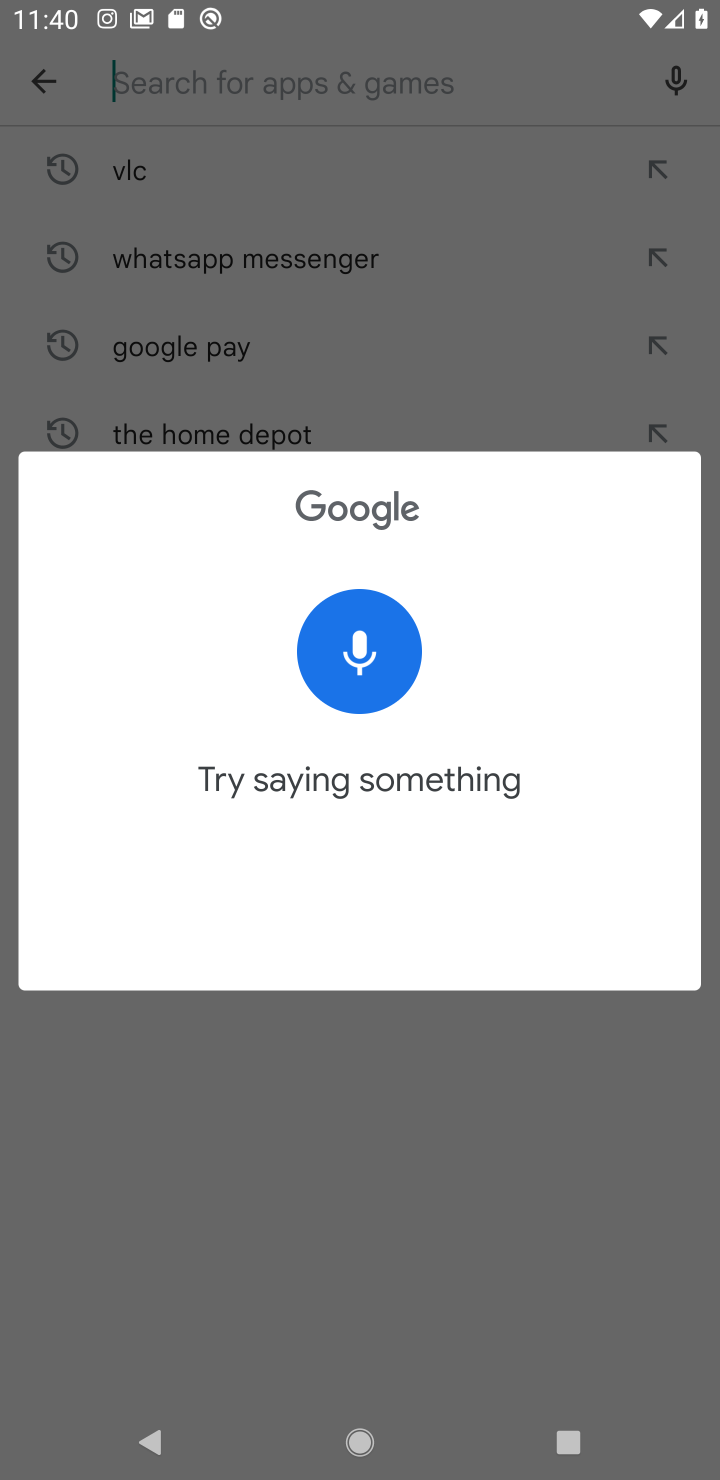
Step 31: type "google maps"
Your task to perform on an android device: install app "Google Maps" Image 32: 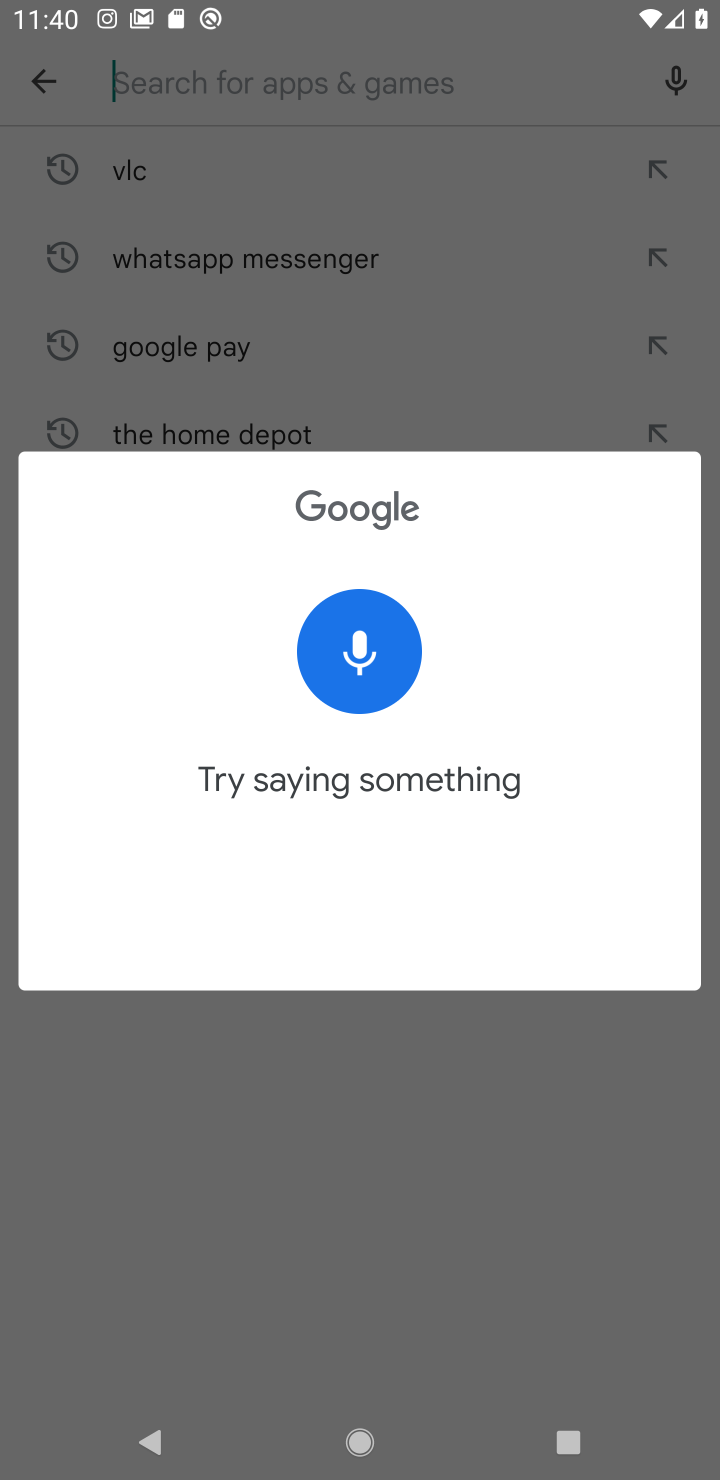
Step 32: drag from (269, 238) to (510, 279)
Your task to perform on an android device: install app "Google Maps" Image 33: 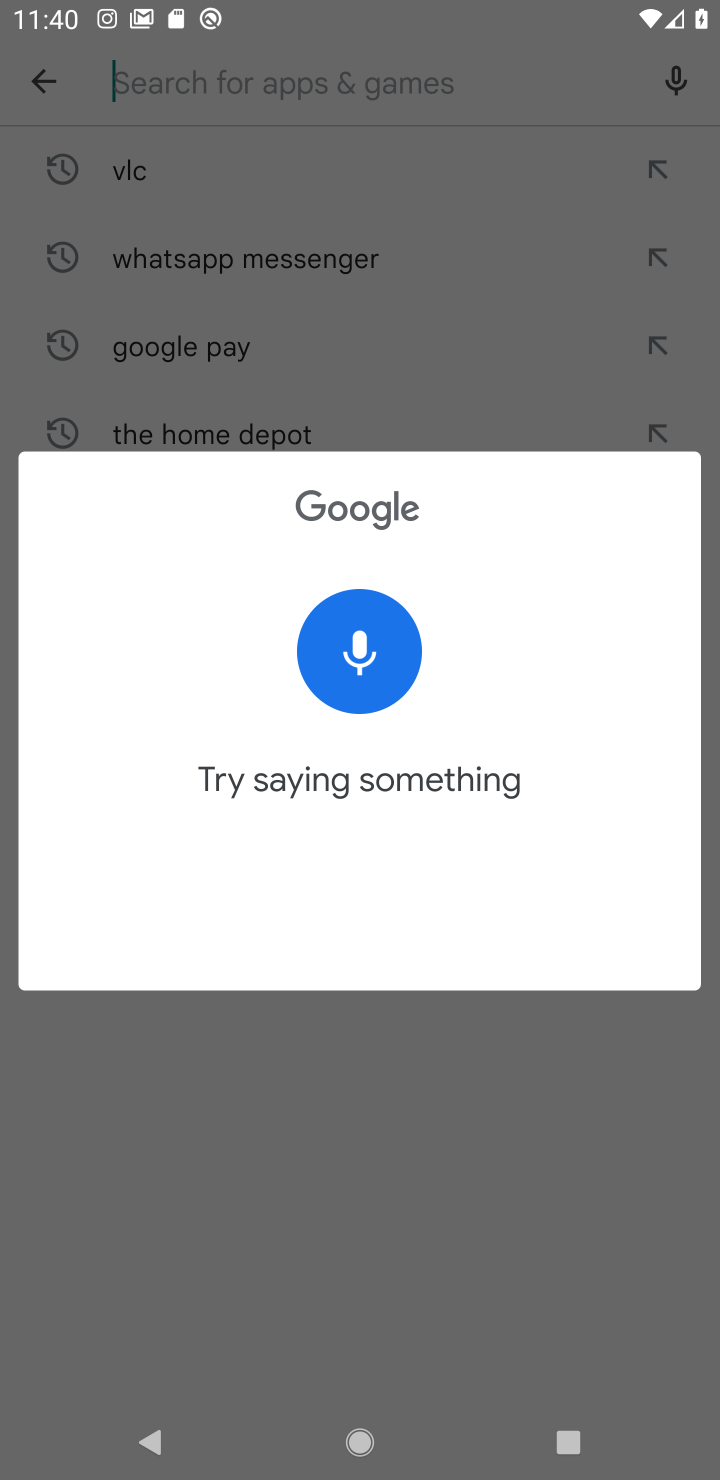
Step 33: click (545, 292)
Your task to perform on an android device: install app "Google Maps" Image 34: 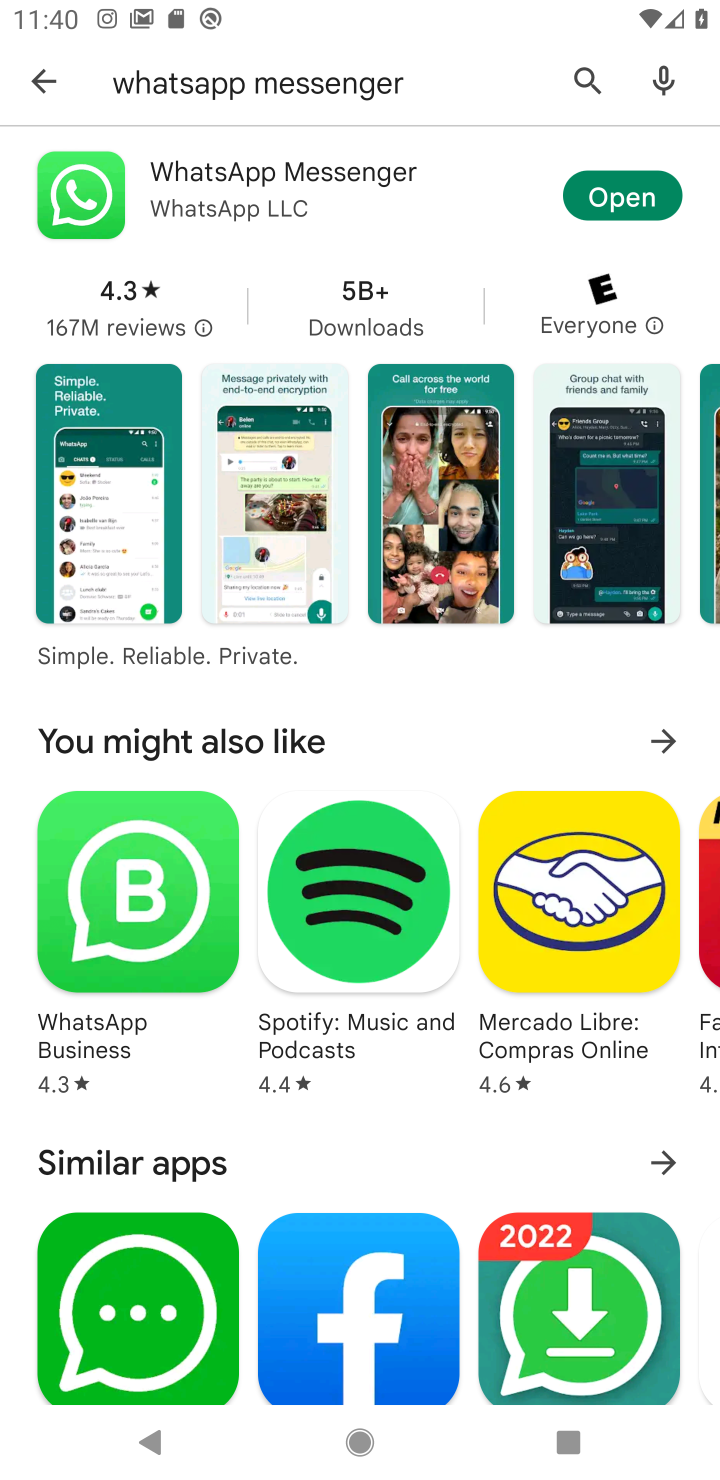
Step 34: click (586, 83)
Your task to perform on an android device: install app "Google Maps" Image 35: 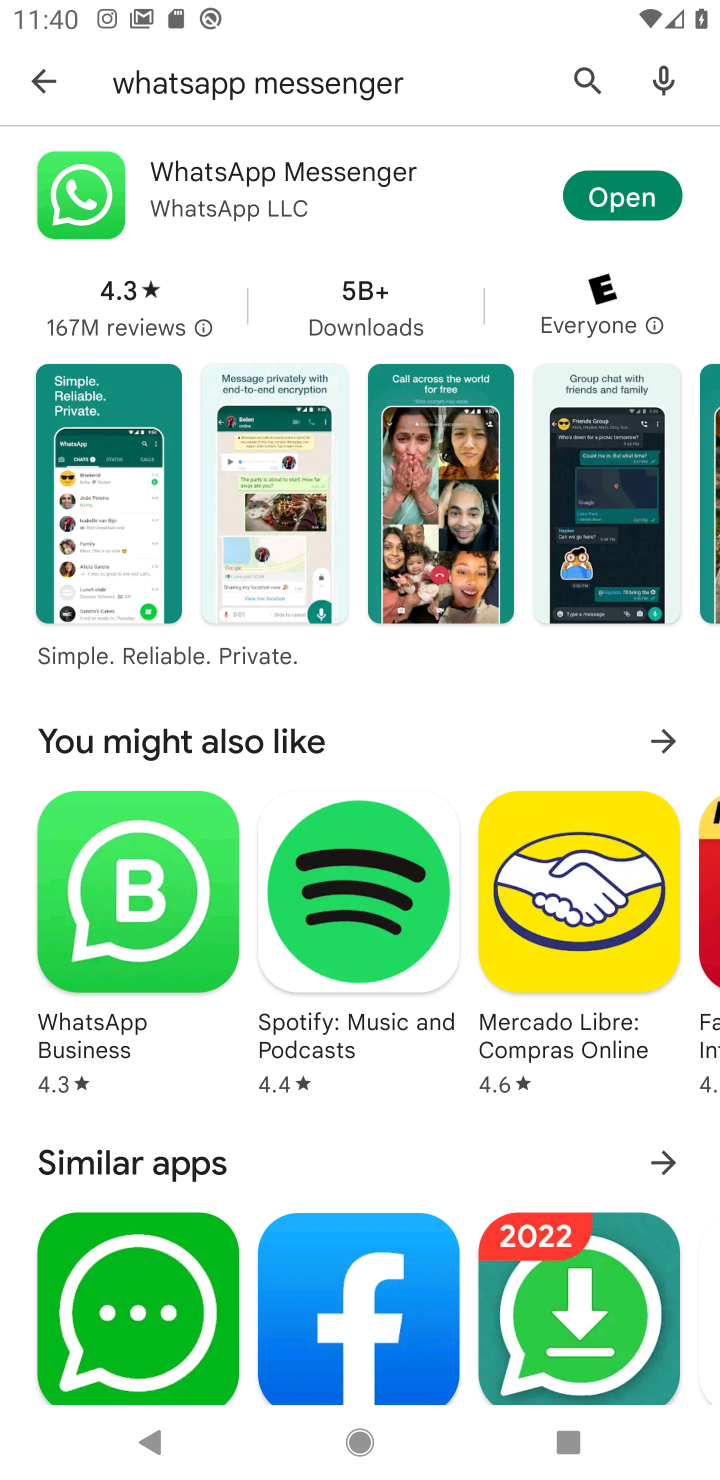
Step 35: click (588, 75)
Your task to perform on an android device: install app "Google Maps" Image 36: 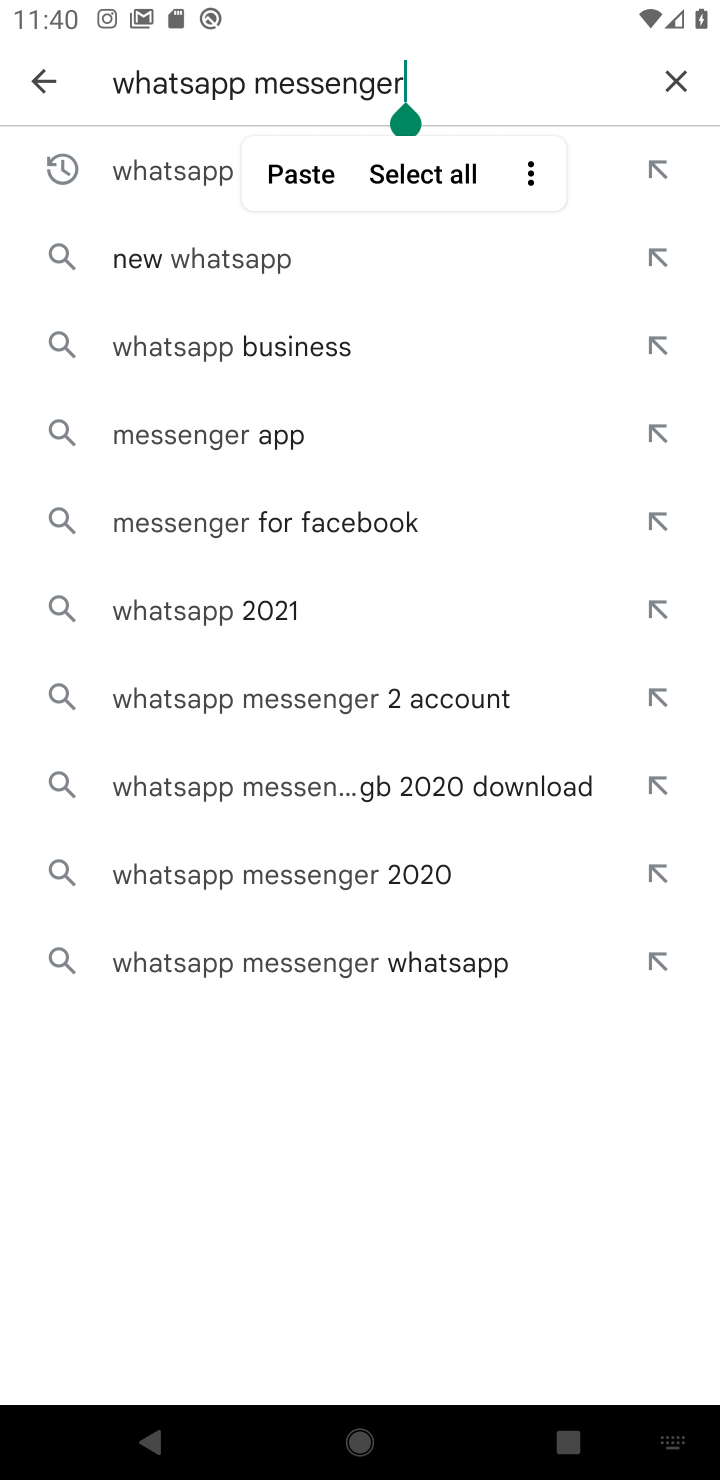
Step 36: click (687, 62)
Your task to perform on an android device: install app "Google Maps" Image 37: 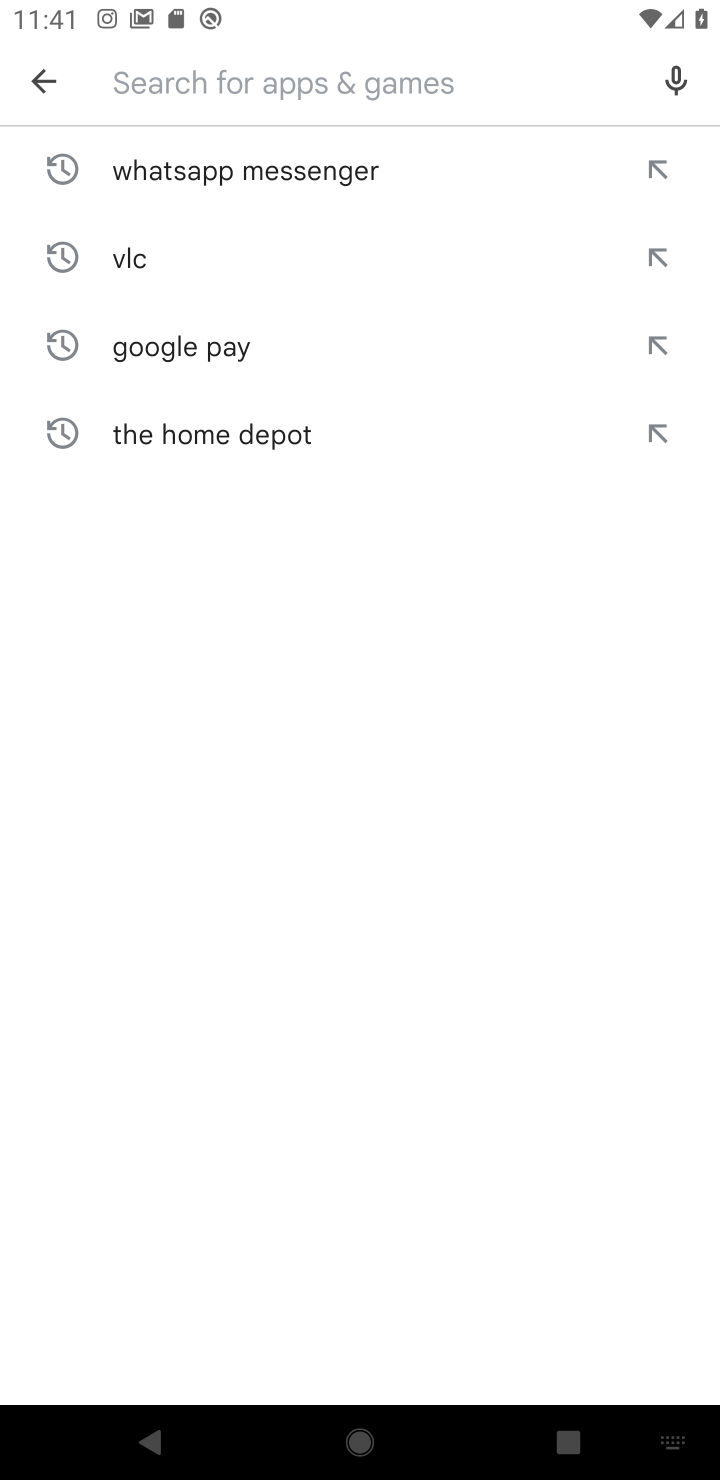
Step 37: type "google maps"
Your task to perform on an android device: install app "Google Maps" Image 38: 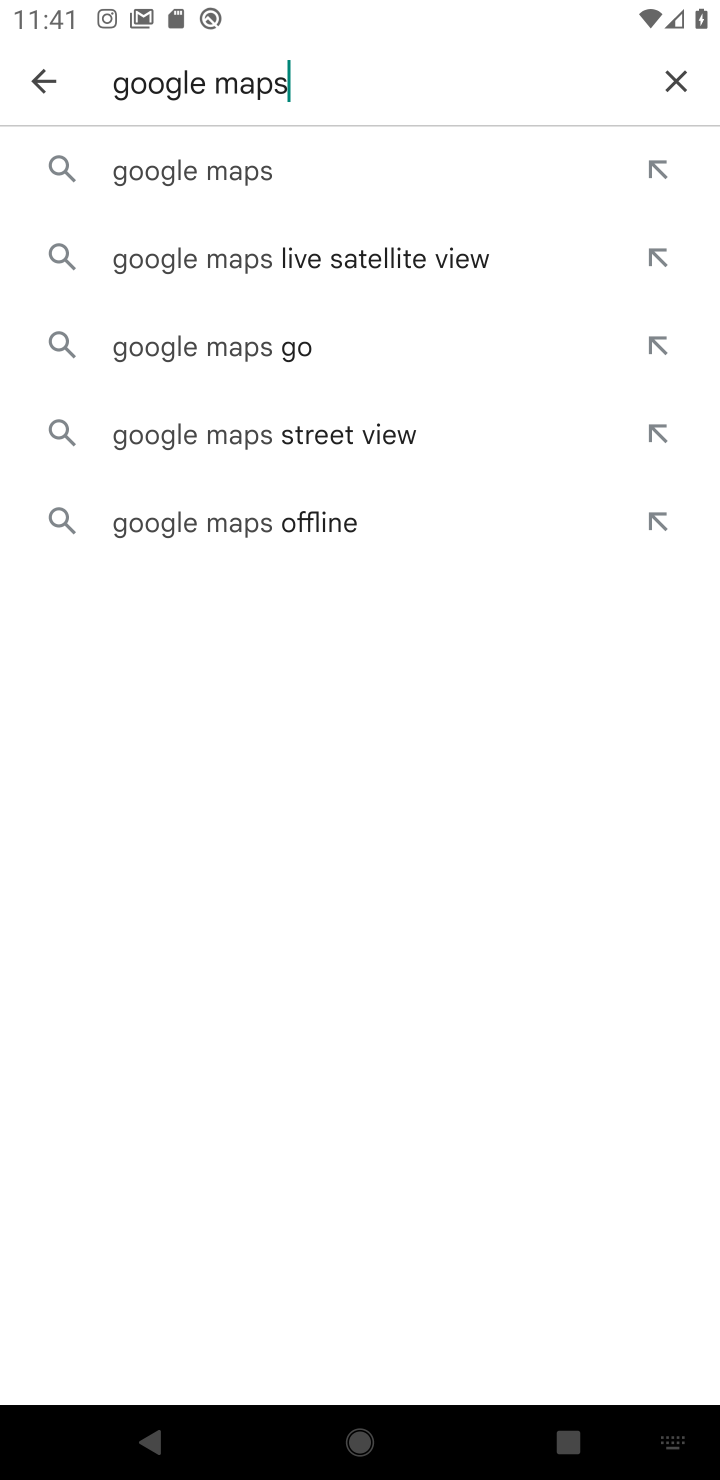
Step 38: click (669, 167)
Your task to perform on an android device: install app "Google Maps" Image 39: 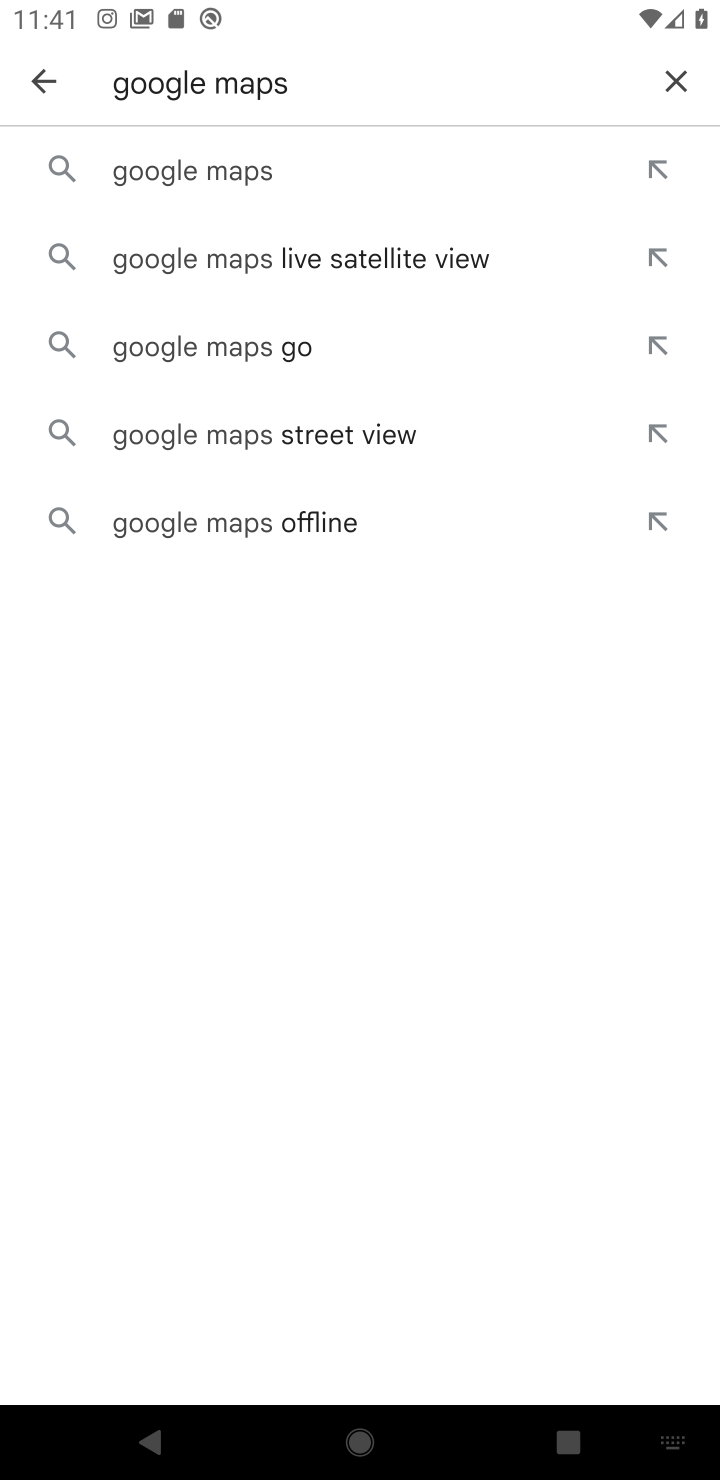
Step 39: click (678, 176)
Your task to perform on an android device: install app "Google Maps" Image 40: 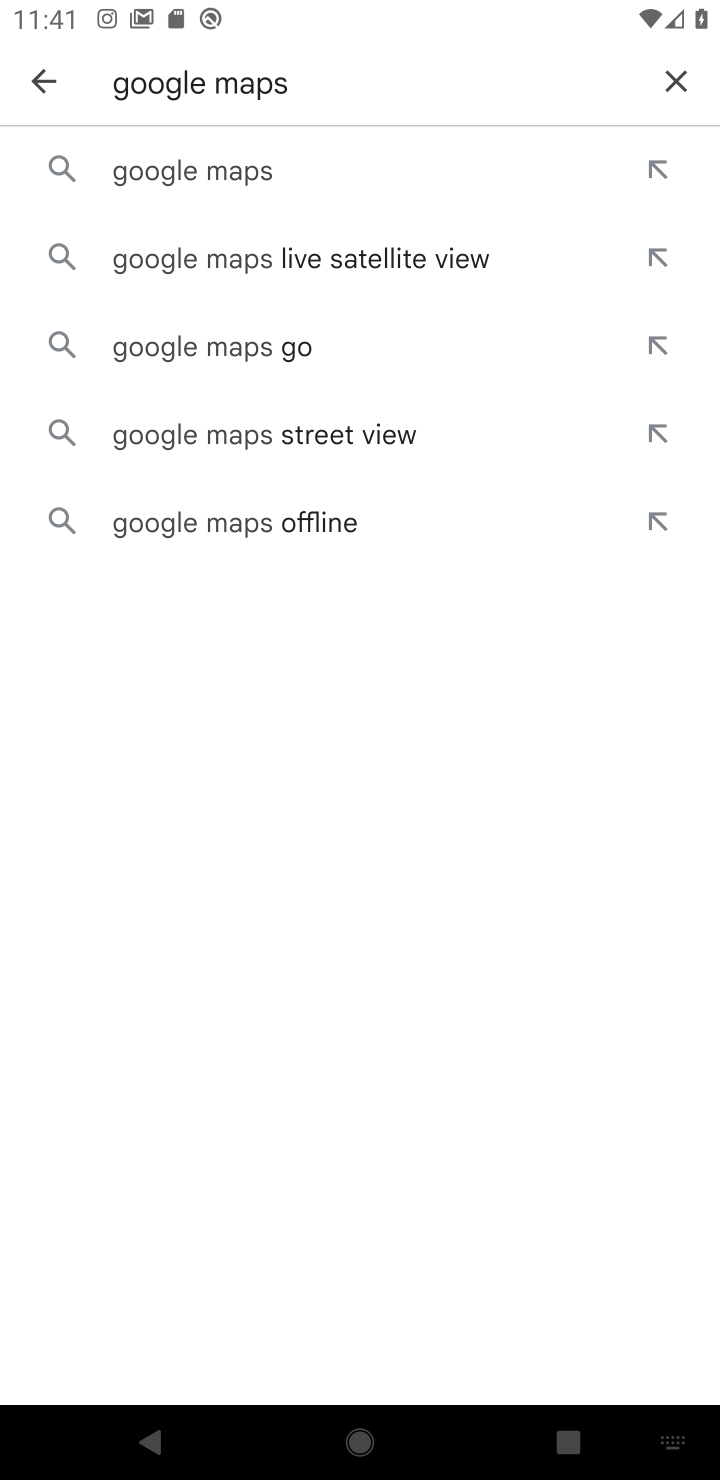
Step 40: click (236, 194)
Your task to perform on an android device: install app "Google Maps" Image 41: 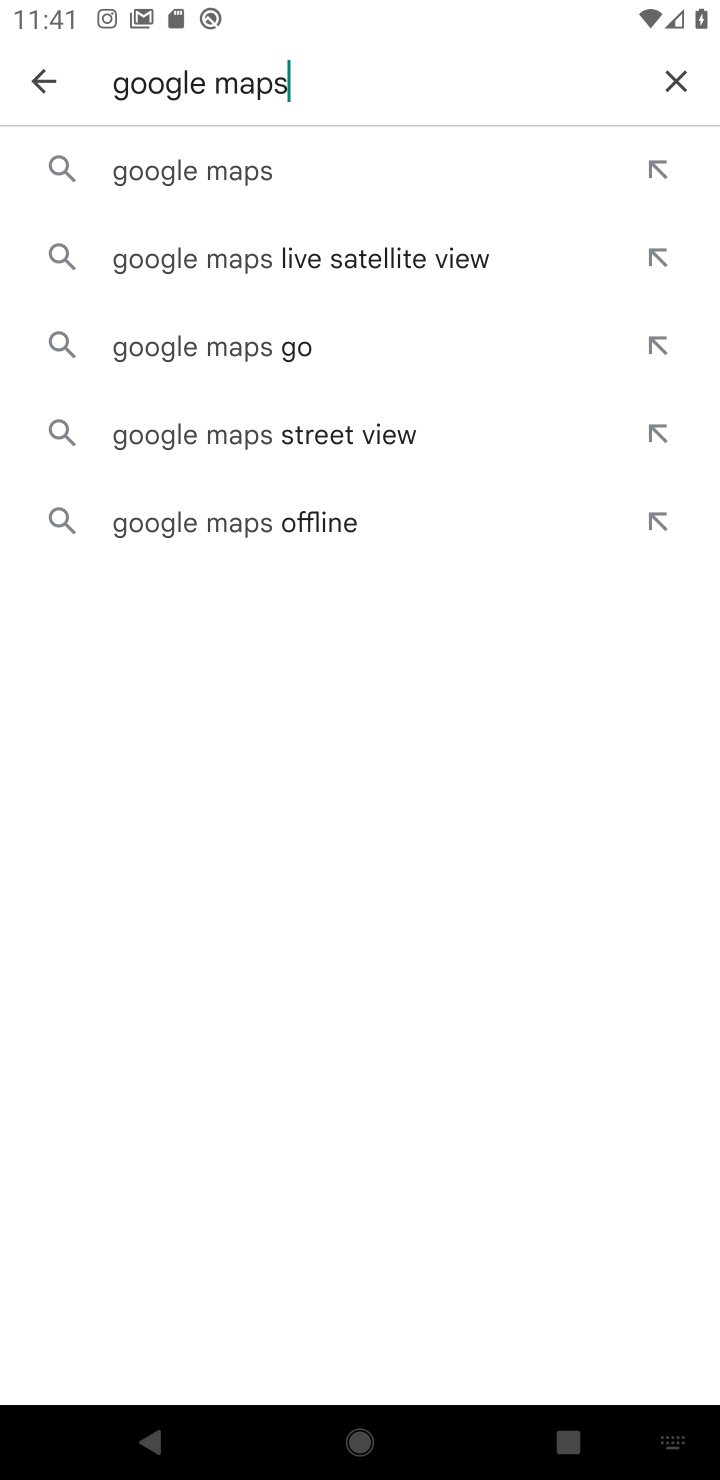
Step 41: click (238, 193)
Your task to perform on an android device: install app "Google Maps" Image 42: 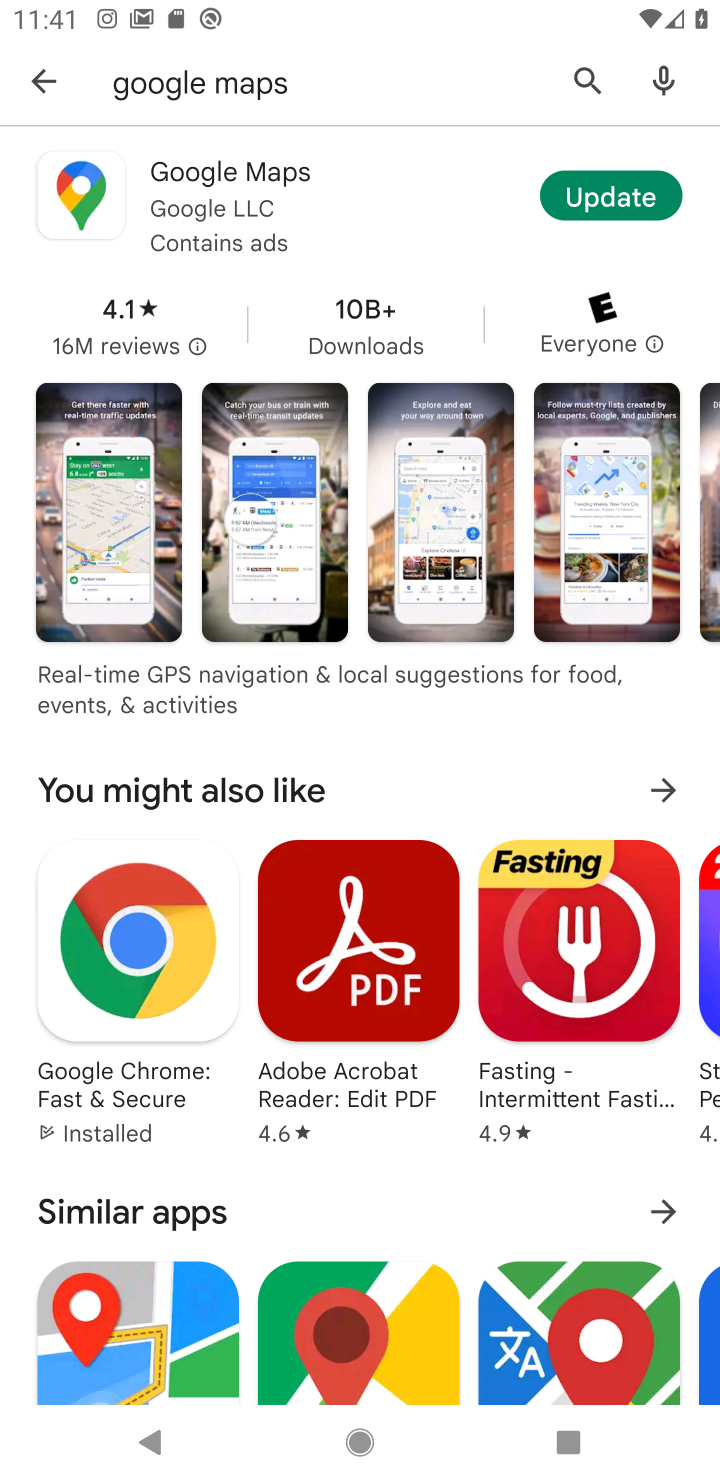
Step 42: click (625, 198)
Your task to perform on an android device: install app "Google Maps" Image 43: 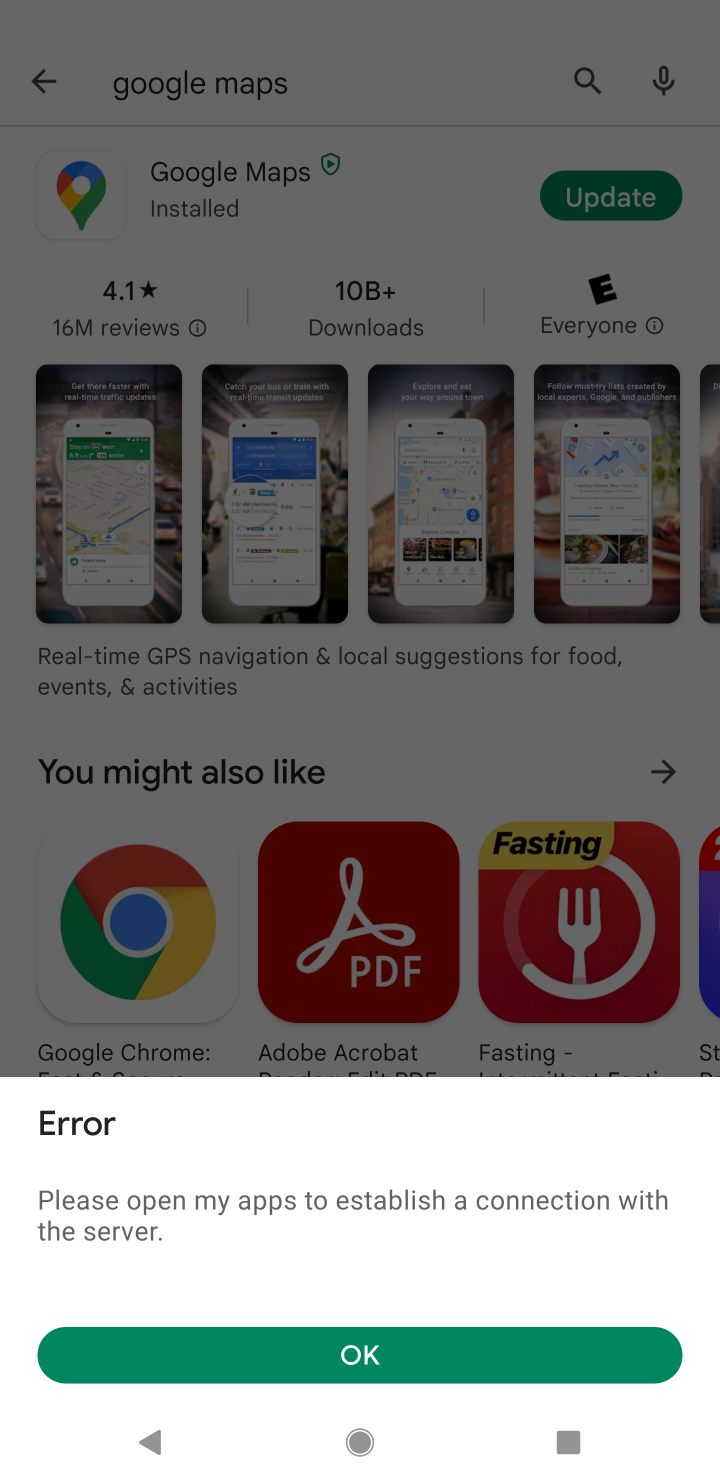
Step 43: click (358, 1302)
Your task to perform on an android device: install app "Google Maps" Image 44: 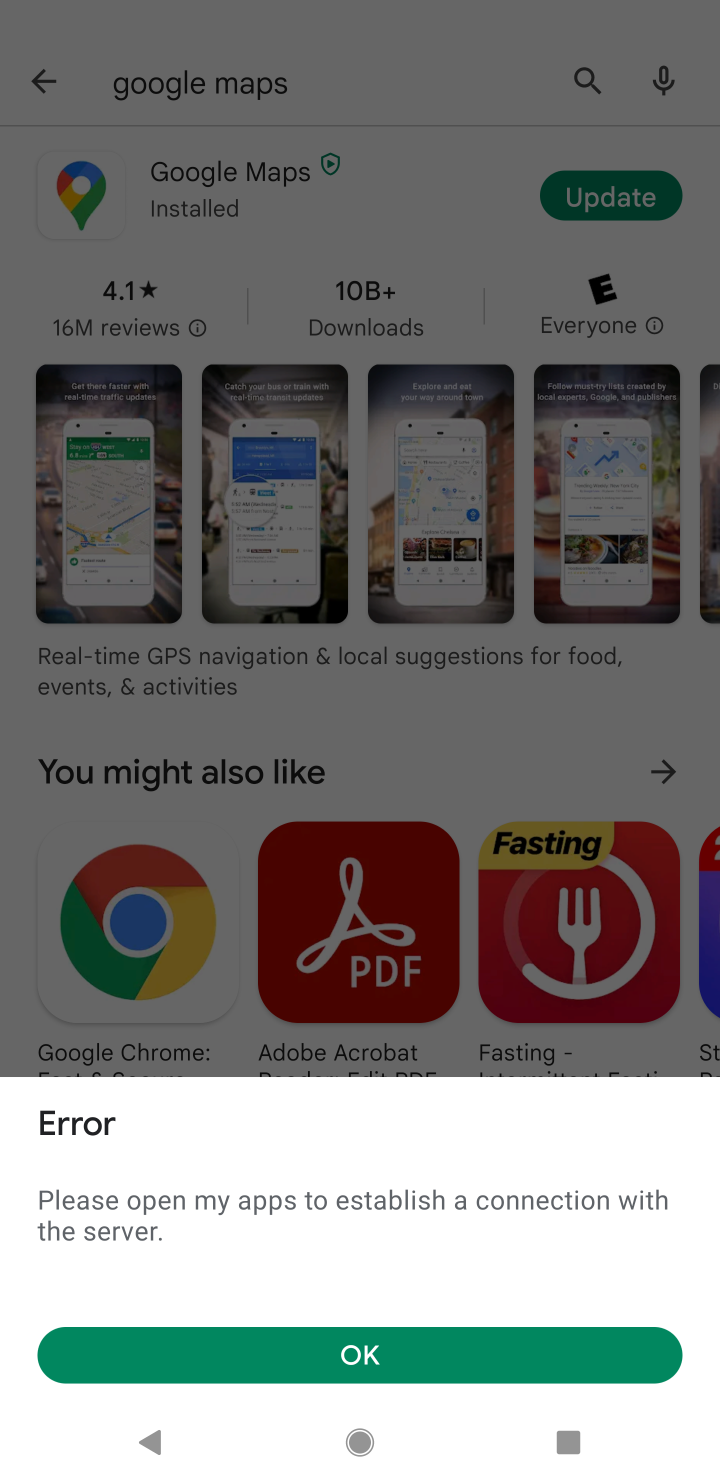
Step 44: click (356, 1303)
Your task to perform on an android device: install app "Google Maps" Image 45: 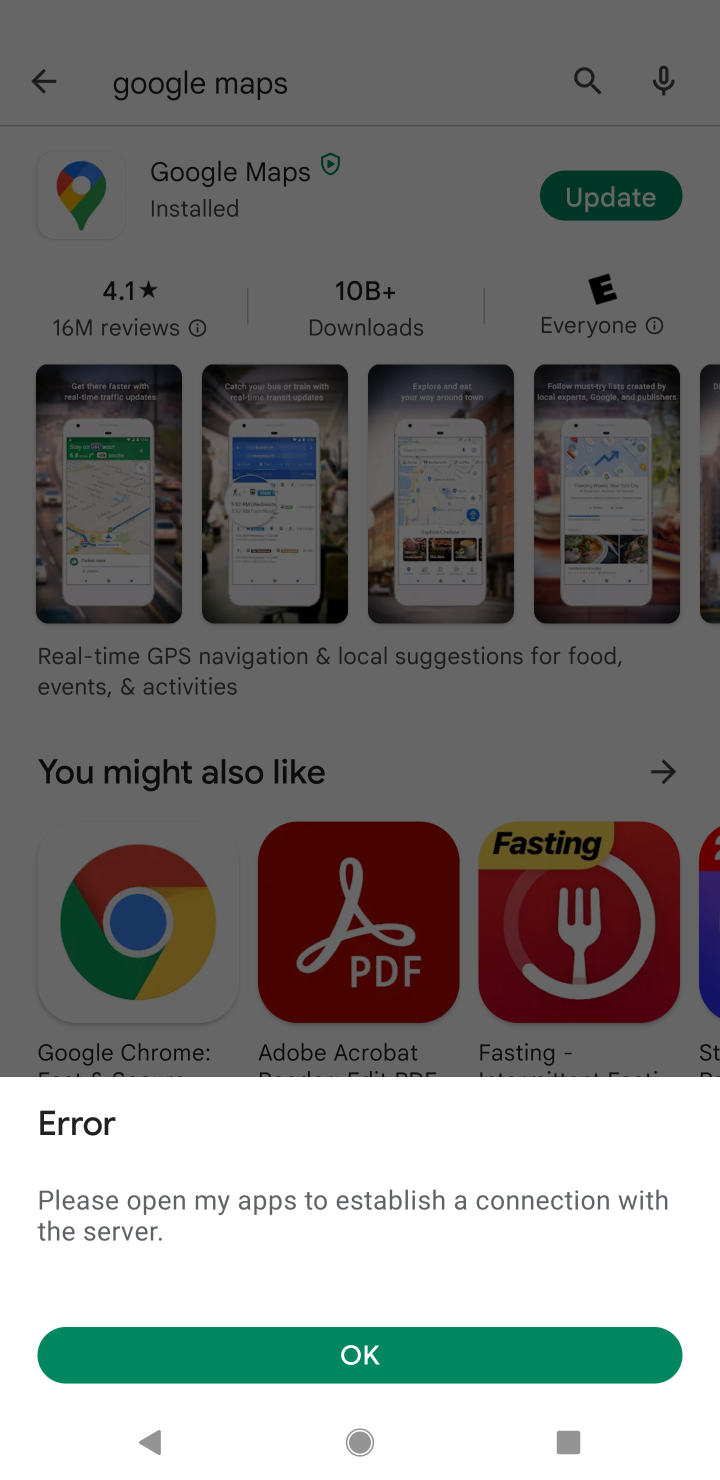
Step 45: click (389, 1368)
Your task to perform on an android device: install app "Google Maps" Image 46: 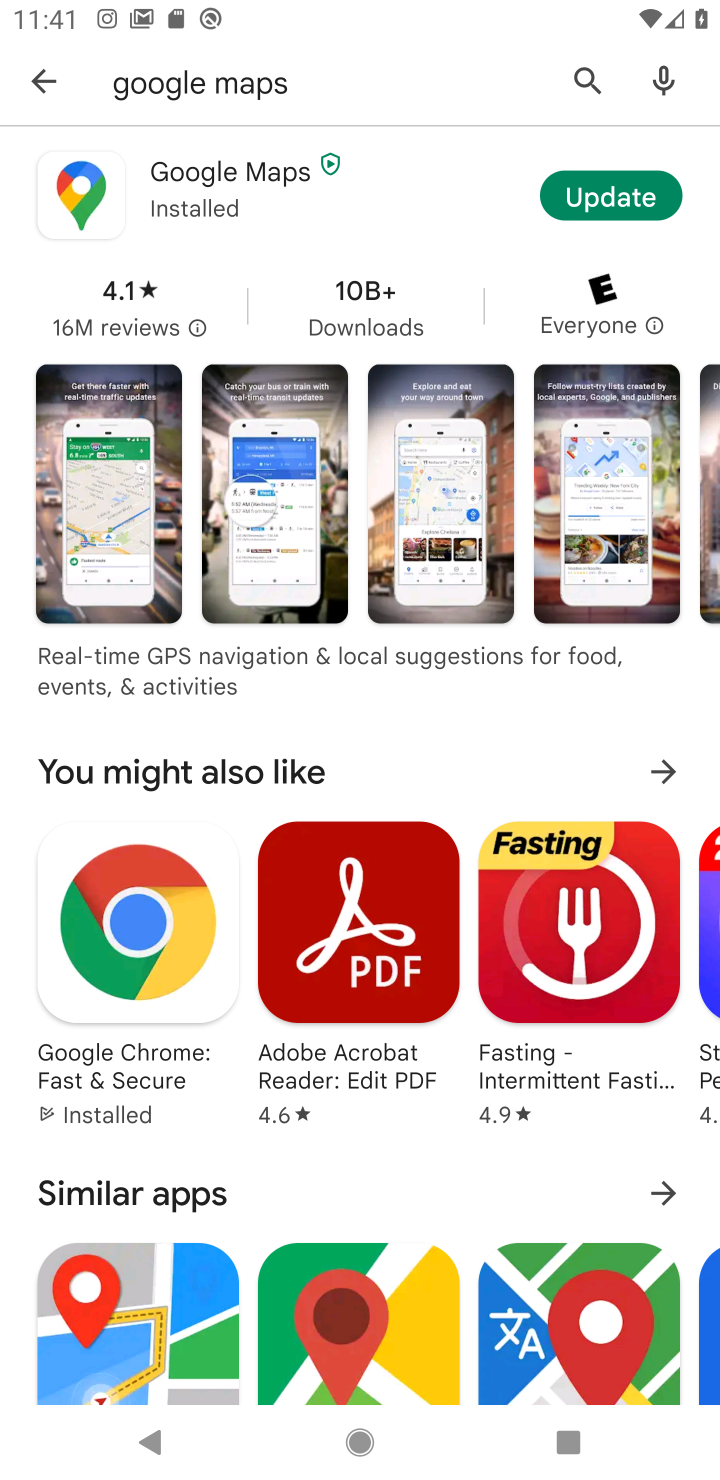
Step 46: task complete